Your task to perform on an android device: Clear the cart on walmart. Search for "energizer triple a" on walmart, select the first entry, add it to the cart, then select checkout. Image 0: 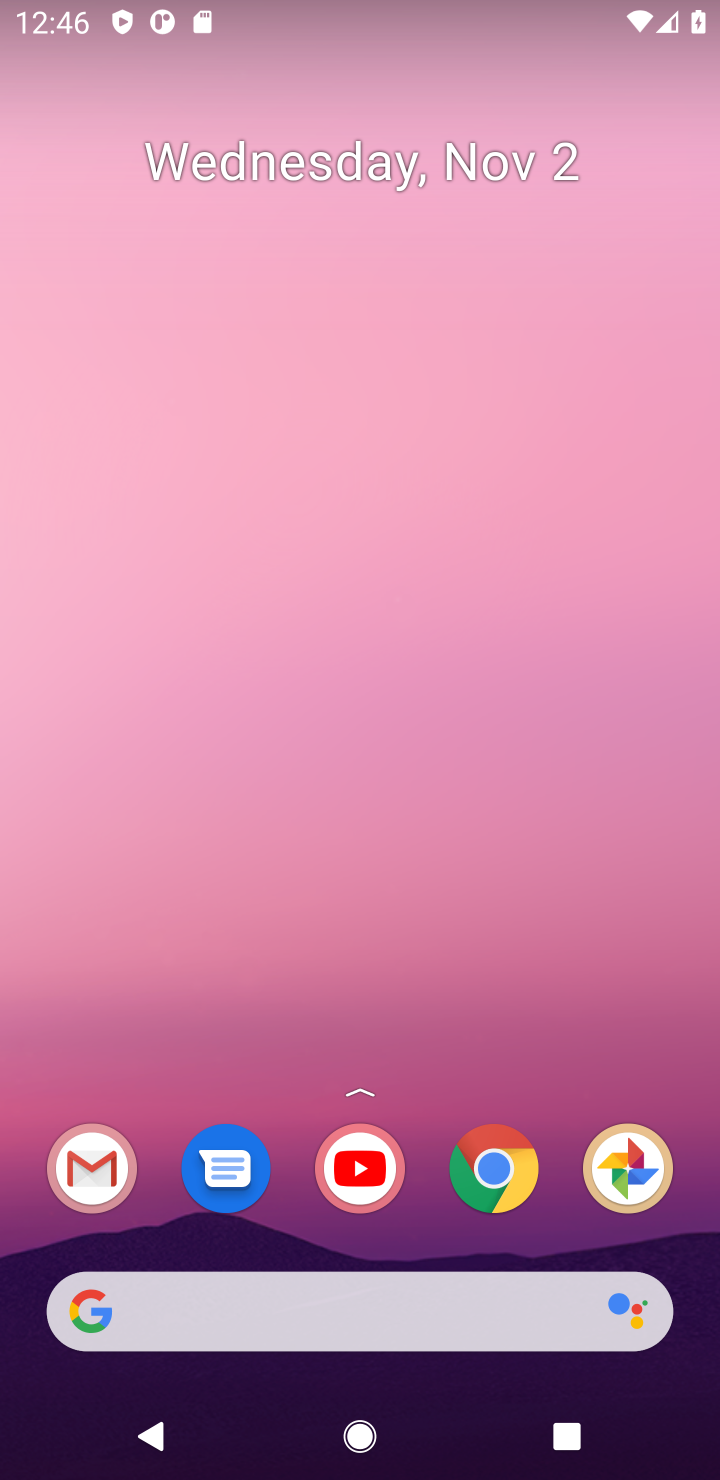
Step 0: drag from (249, 1117) to (596, 1406)
Your task to perform on an android device: Clear the cart on walmart. Search for "energizer triple a" on walmart, select the first entry, add it to the cart, then select checkout. Image 1: 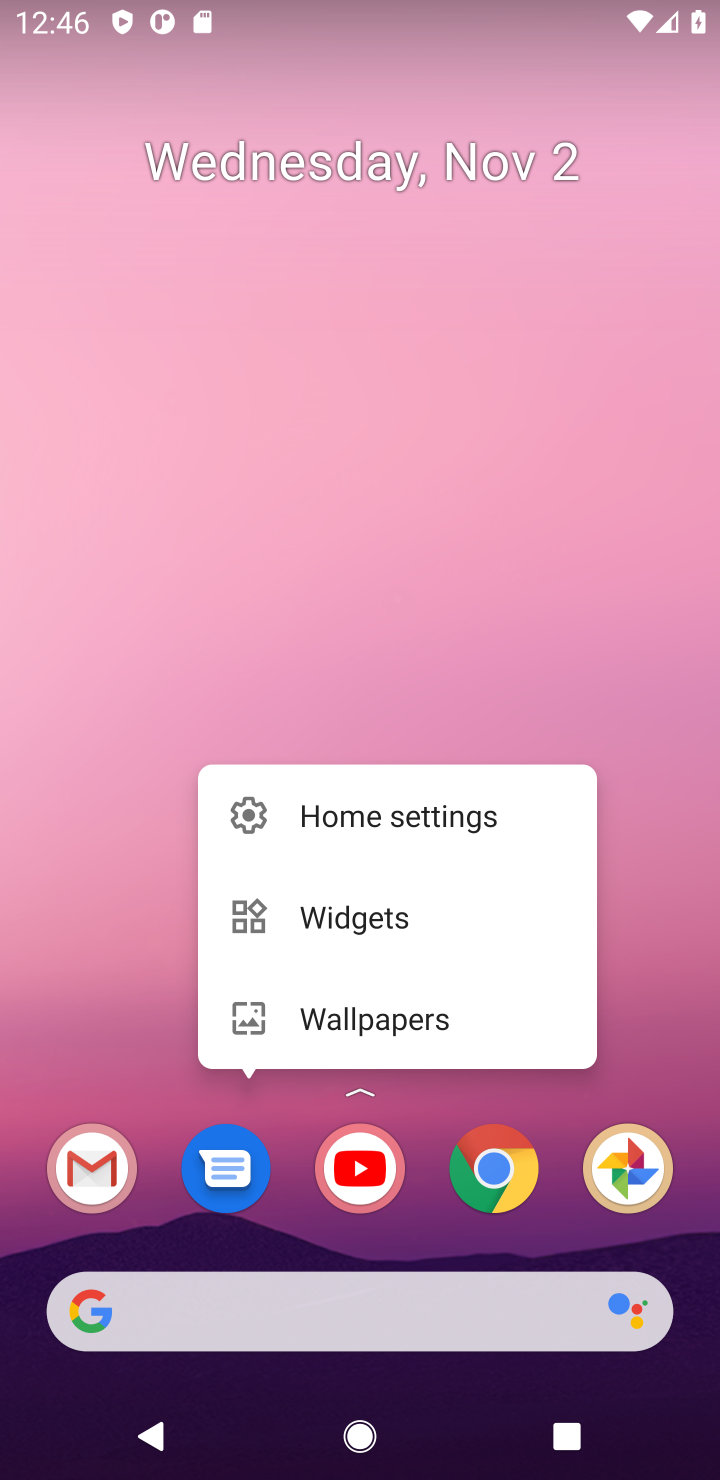
Step 1: click (291, 1309)
Your task to perform on an android device: Clear the cart on walmart. Search for "energizer triple a" on walmart, select the first entry, add it to the cart, then select checkout. Image 2: 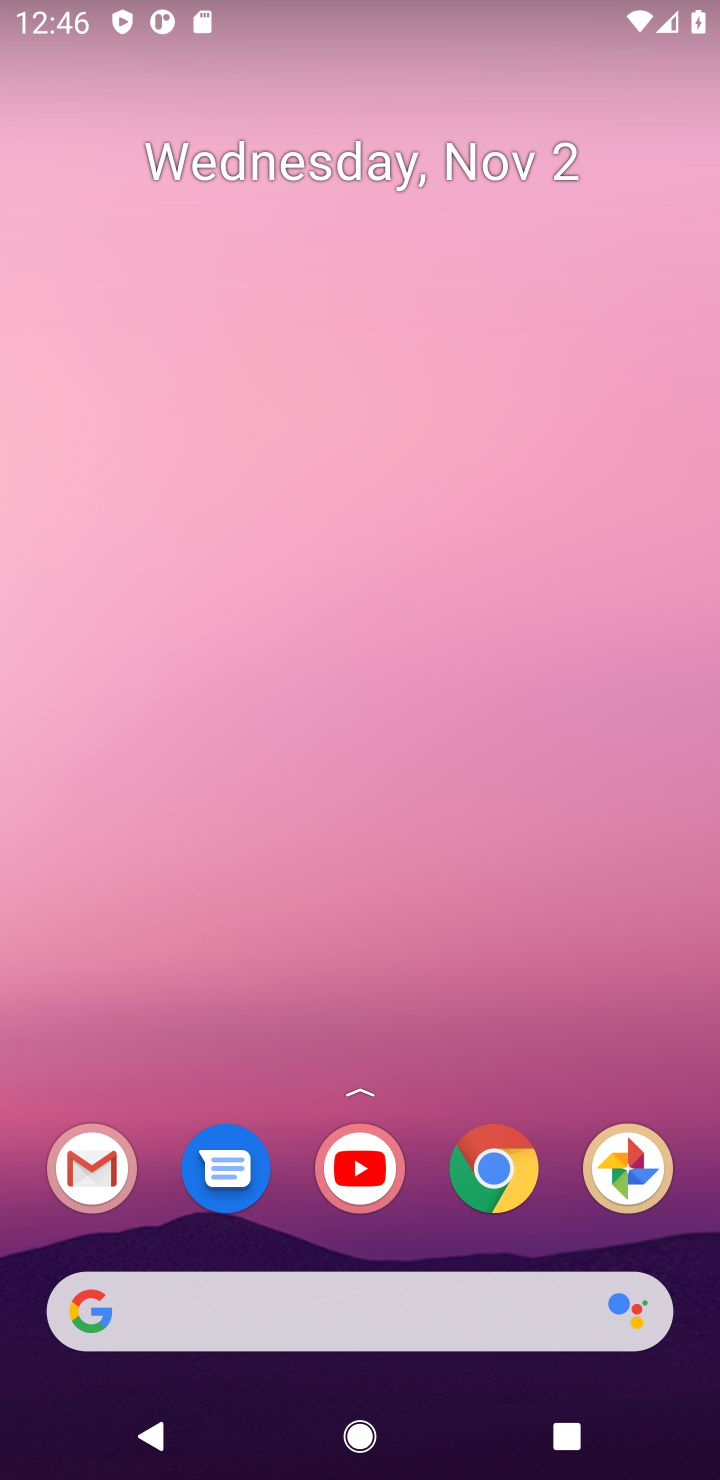
Step 2: click (291, 1309)
Your task to perform on an android device: Clear the cart on walmart. Search for "energizer triple a" on walmart, select the first entry, add it to the cart, then select checkout. Image 3: 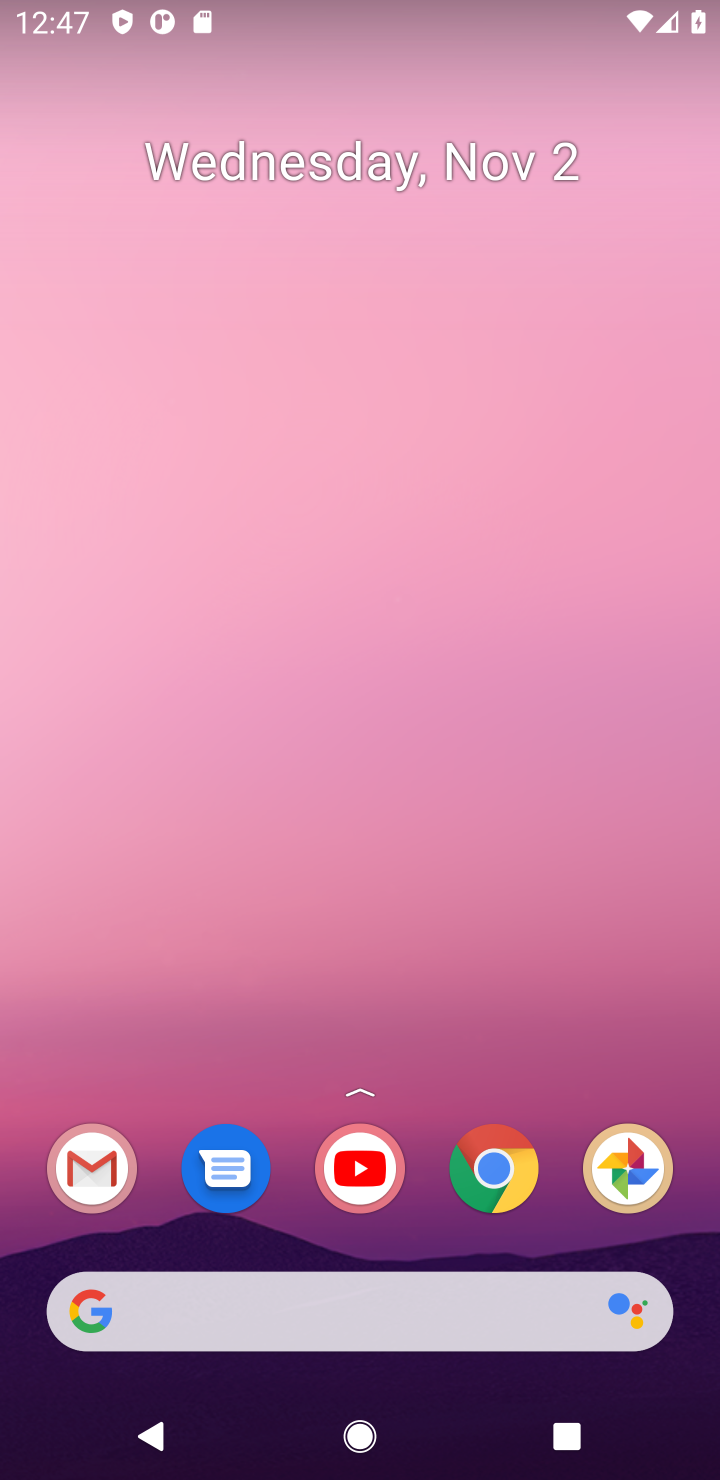
Step 3: click (291, 1309)
Your task to perform on an android device: Clear the cart on walmart. Search for "energizer triple a" on walmart, select the first entry, add it to the cart, then select checkout. Image 4: 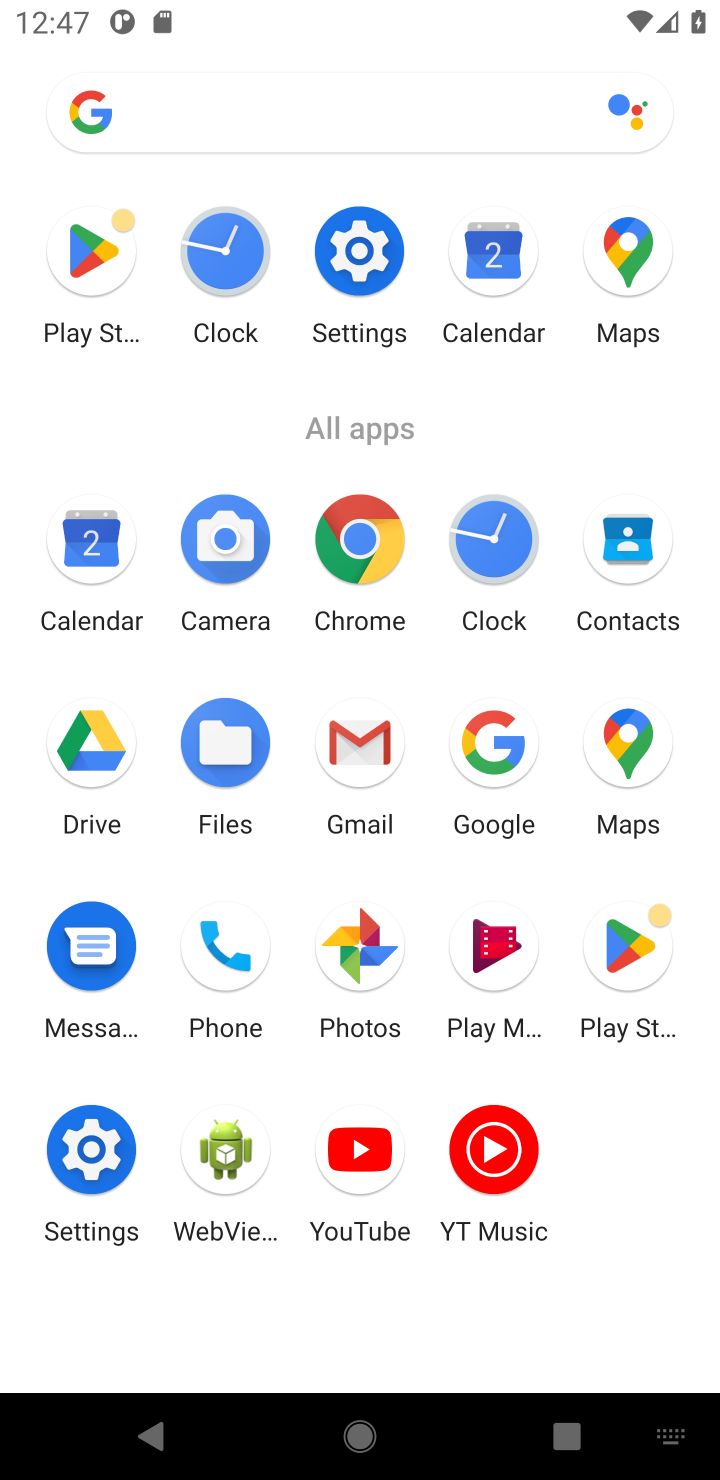
Step 4: click (495, 747)
Your task to perform on an android device: Clear the cart on walmart. Search for "energizer triple a" on walmart, select the first entry, add it to the cart, then select checkout. Image 5: 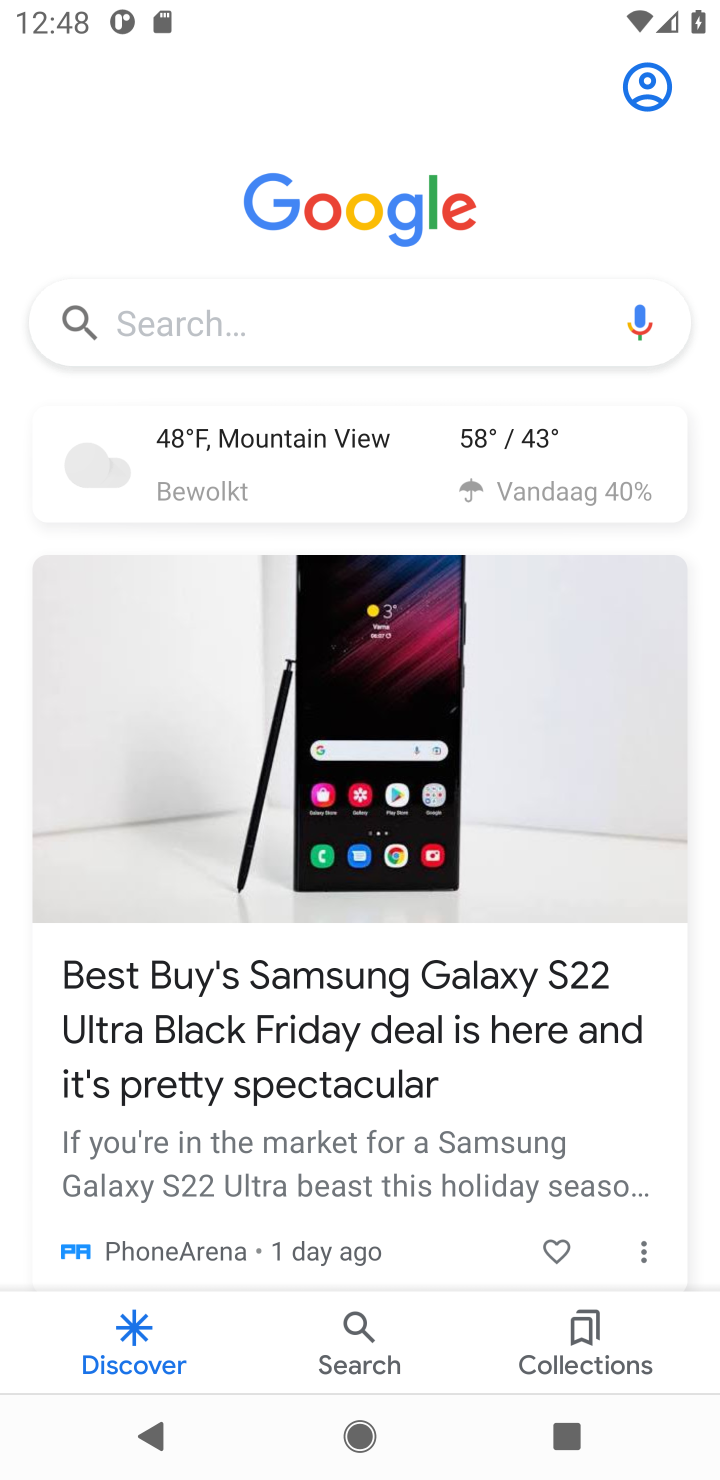
Step 5: click (426, 323)
Your task to perform on an android device: Clear the cart on walmart. Search for "energizer triple a" on walmart, select the first entry, add it to the cart, then select checkout. Image 6: 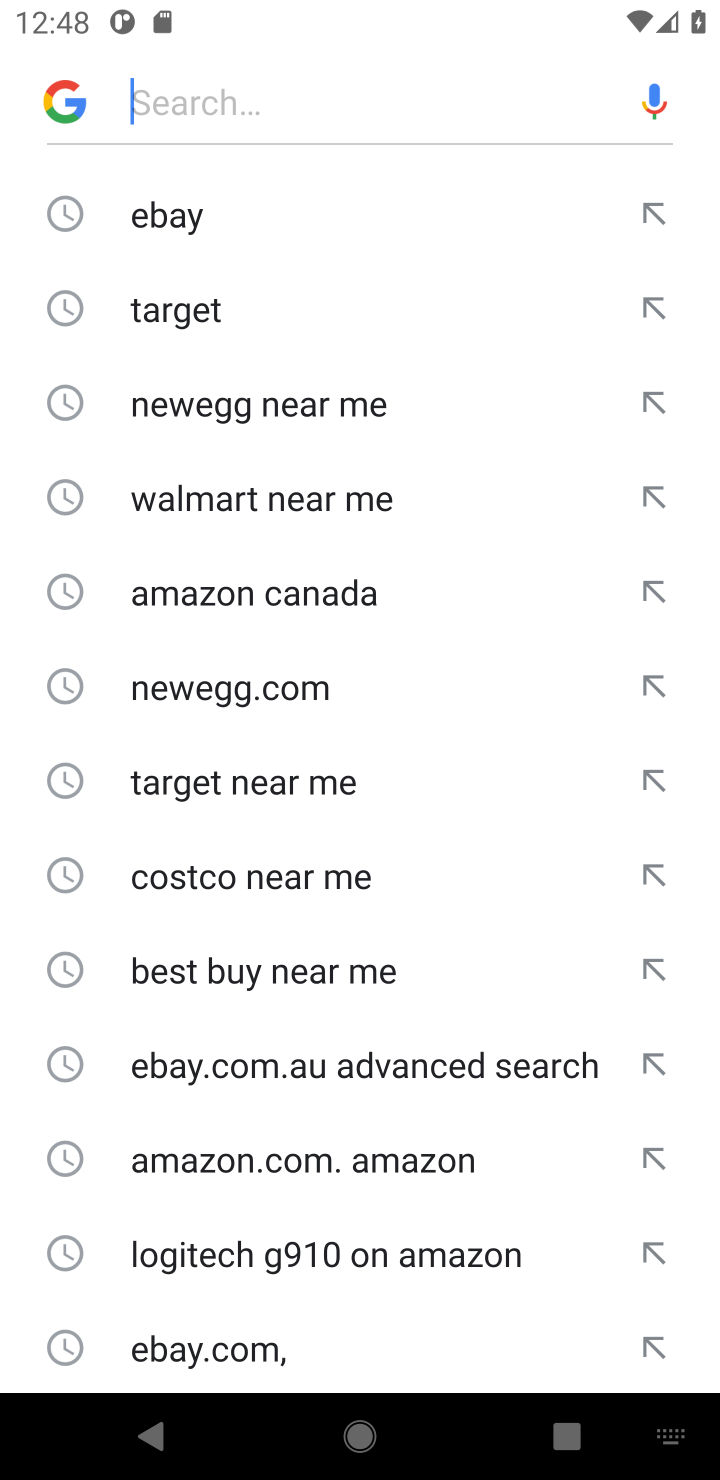
Step 6: type "walmart"
Your task to perform on an android device: Clear the cart on walmart. Search for "energizer triple a" on walmart, select the first entry, add it to the cart, then select checkout. Image 7: 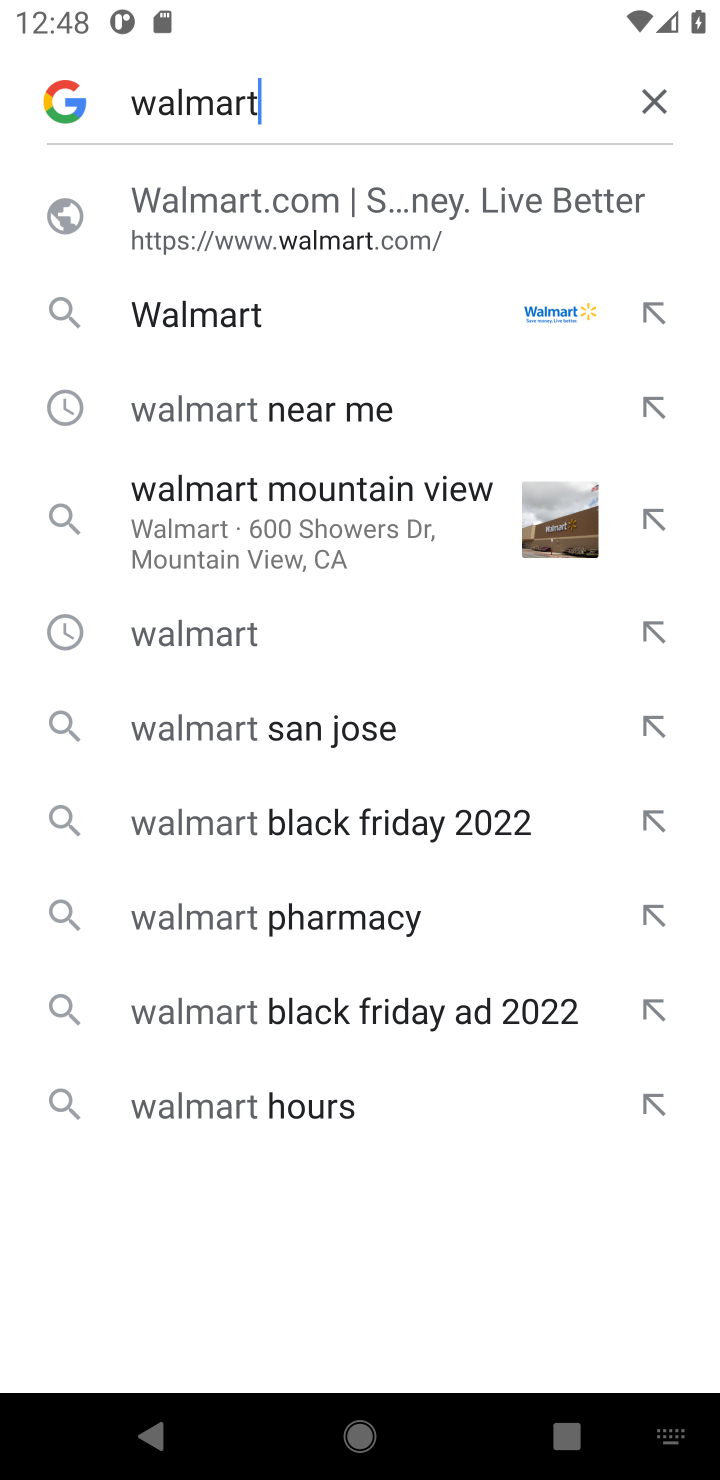
Step 7: click (214, 314)
Your task to perform on an android device: Clear the cart on walmart. Search for "energizer triple a" on walmart, select the first entry, add it to the cart, then select checkout. Image 8: 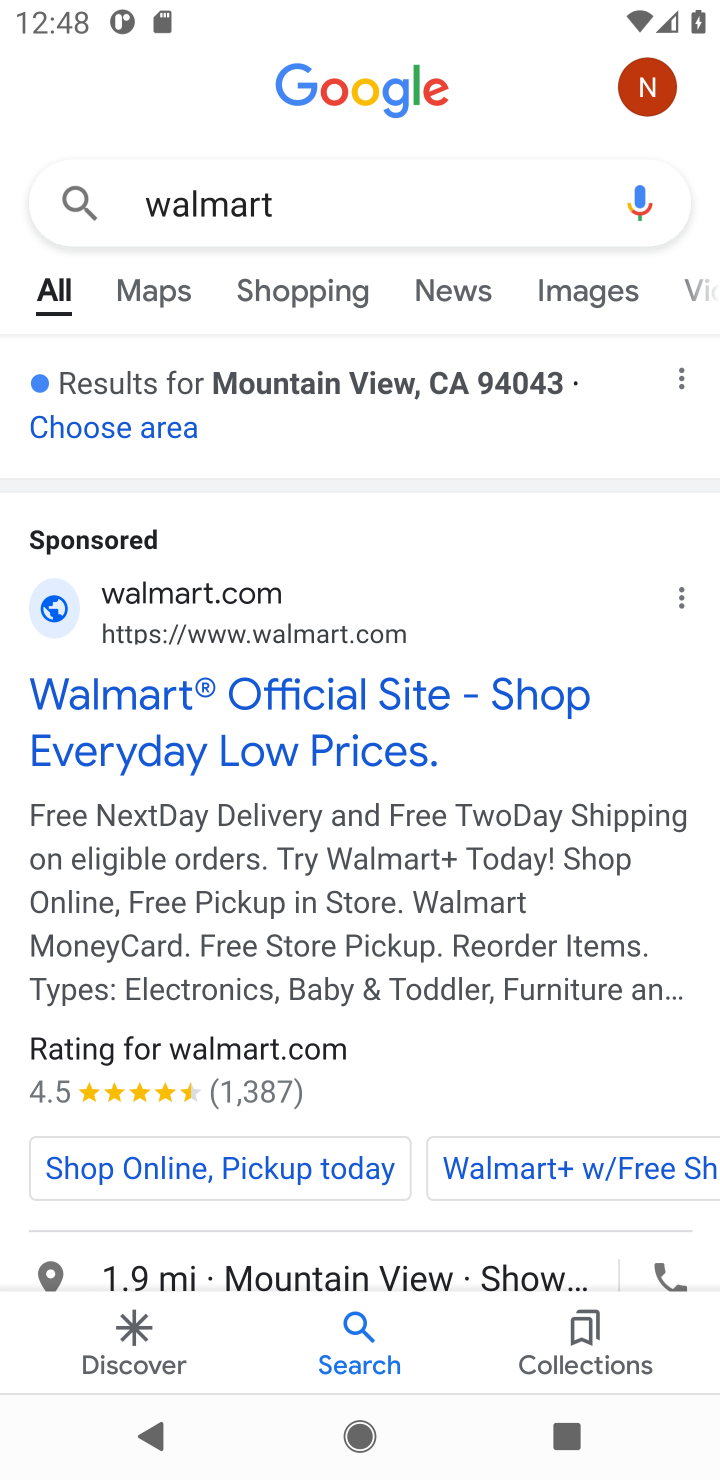
Step 8: click (221, 862)
Your task to perform on an android device: Clear the cart on walmart. Search for "energizer triple a" on walmart, select the first entry, add it to the cart, then select checkout. Image 9: 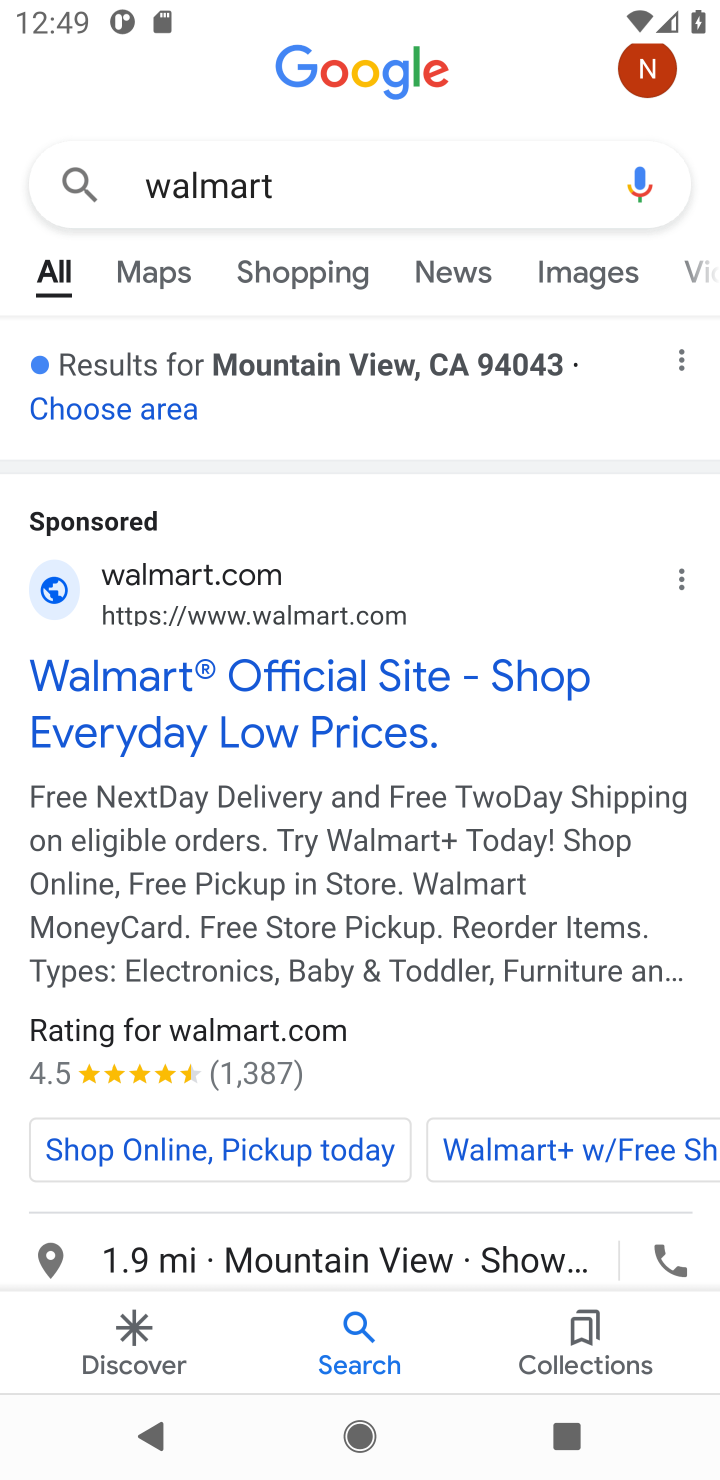
Step 9: drag from (325, 969) to (361, 724)
Your task to perform on an android device: Clear the cart on walmart. Search for "energizer triple a" on walmart, select the first entry, add it to the cart, then select checkout. Image 10: 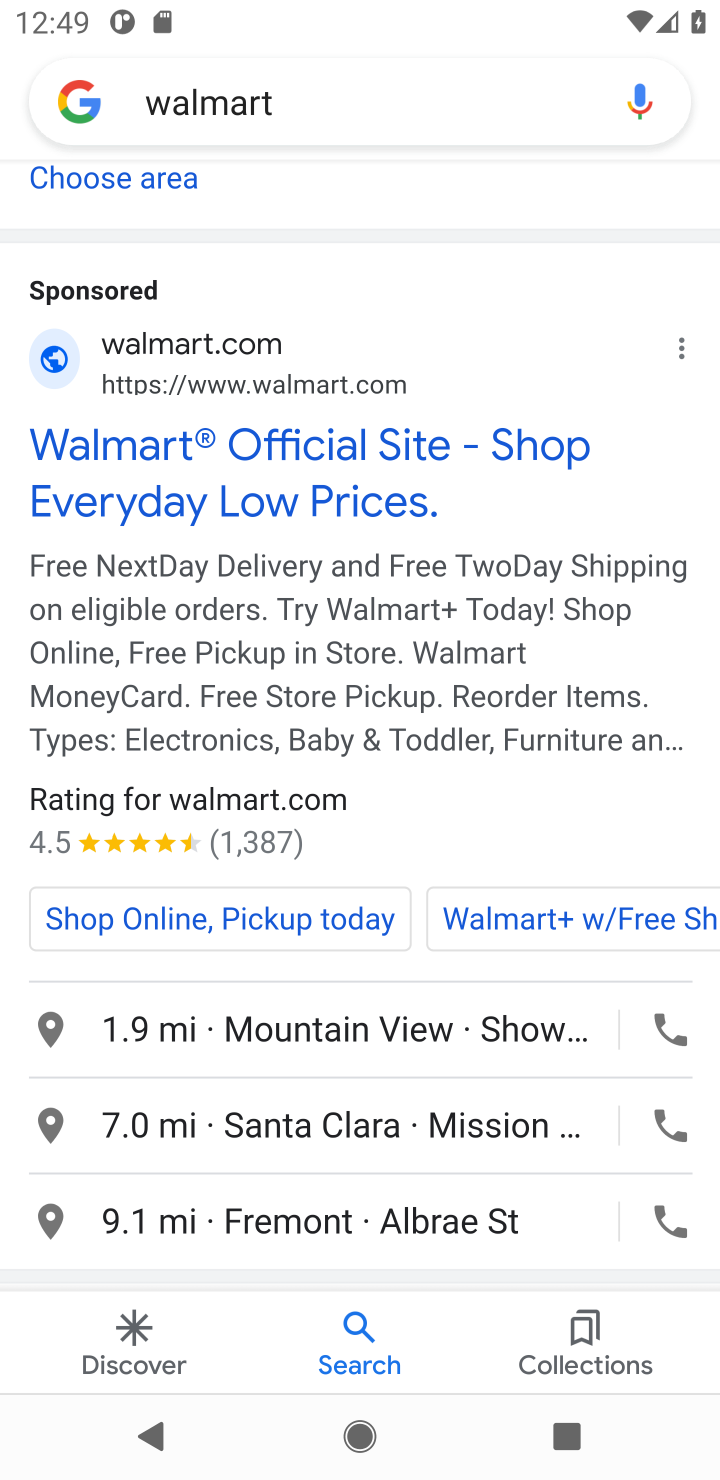
Step 10: drag from (344, 1116) to (378, 825)
Your task to perform on an android device: Clear the cart on walmart. Search for "energizer triple a" on walmart, select the first entry, add it to the cart, then select checkout. Image 11: 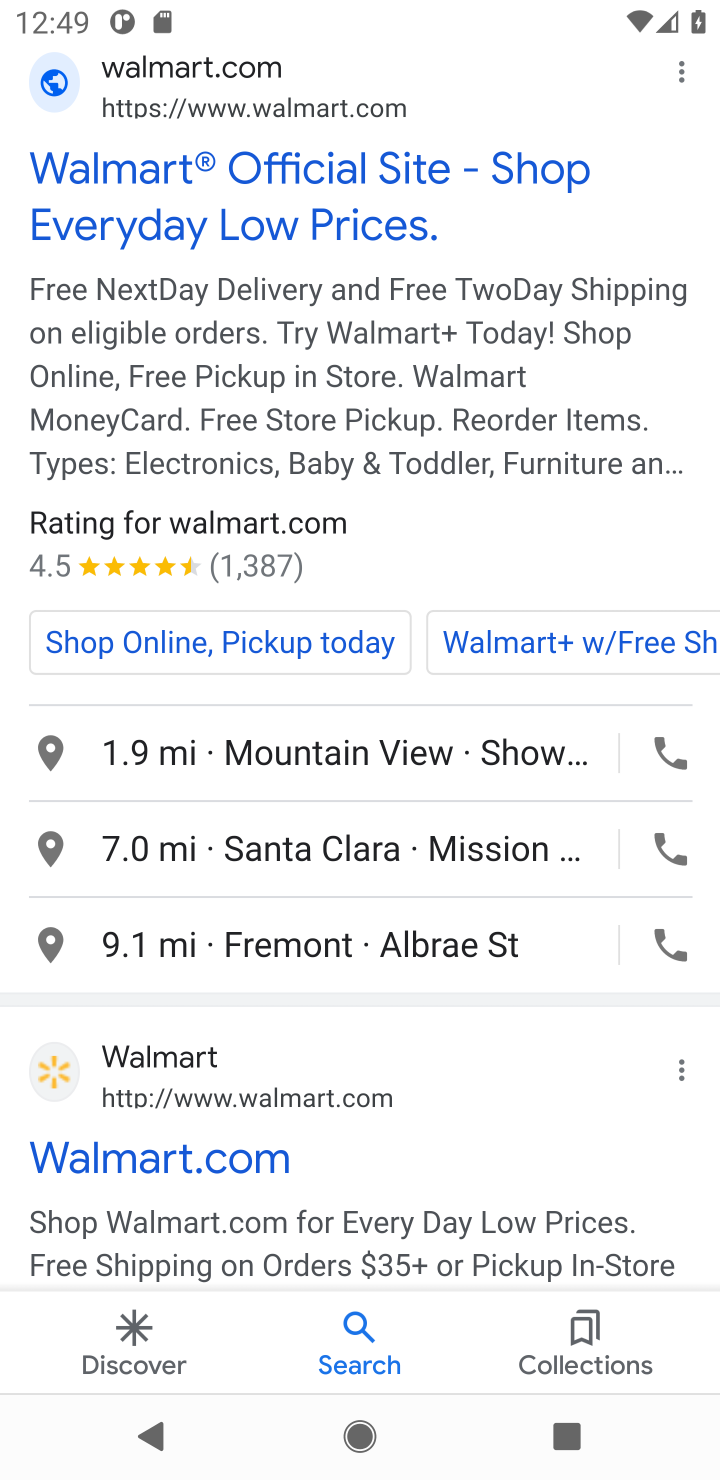
Step 11: click (146, 1149)
Your task to perform on an android device: Clear the cart on walmart. Search for "energizer triple a" on walmart, select the first entry, add it to the cart, then select checkout. Image 12: 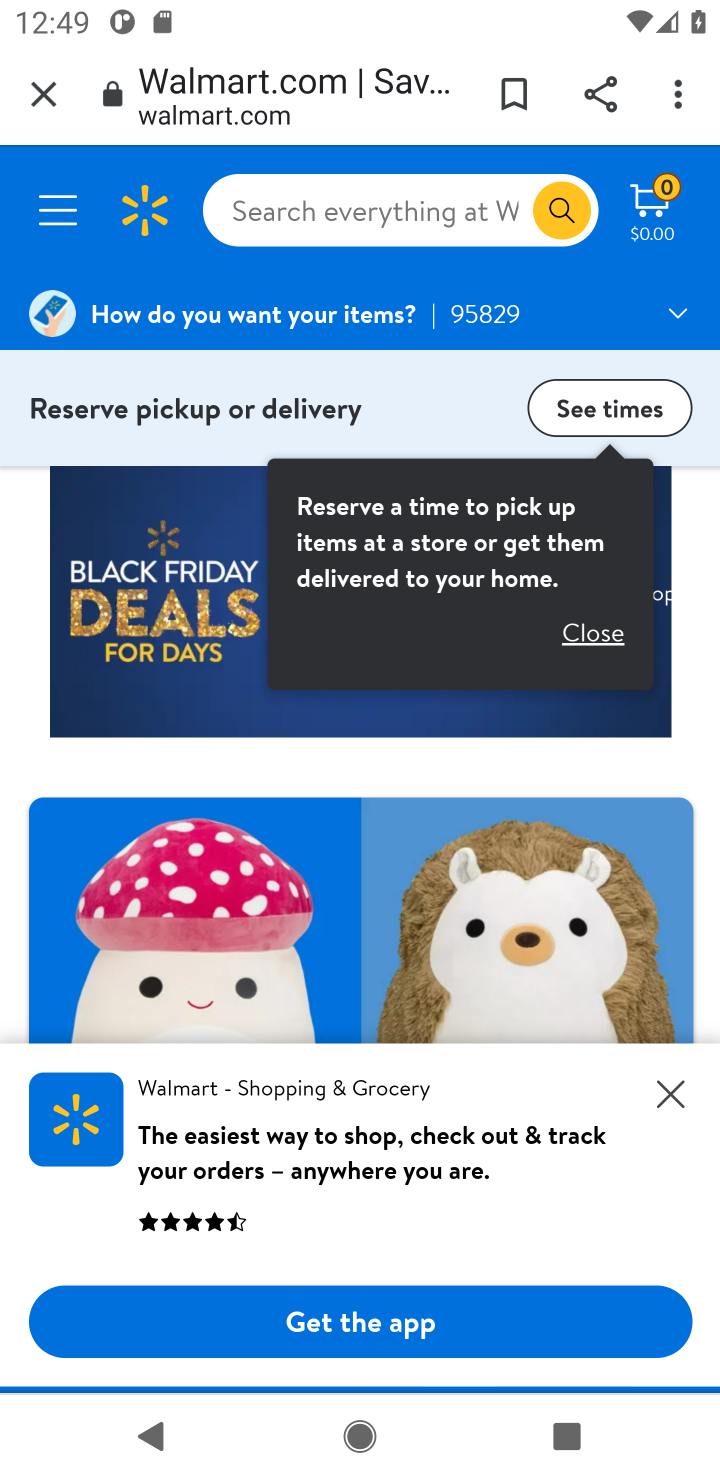
Step 12: click (390, 180)
Your task to perform on an android device: Clear the cart on walmart. Search for "energizer triple a" on walmart, select the first entry, add it to the cart, then select checkout. Image 13: 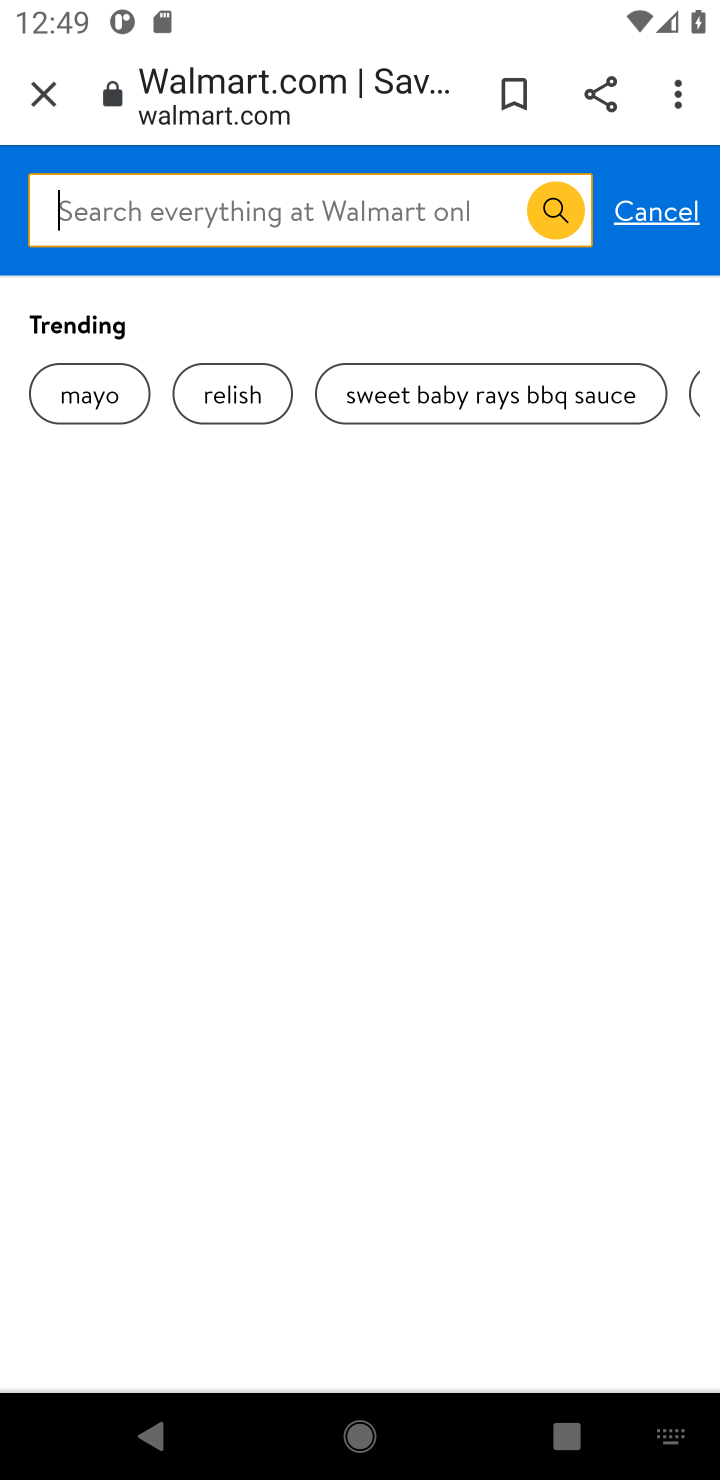
Step 13: click (200, 216)
Your task to perform on an android device: Clear the cart on walmart. Search for "energizer triple a" on walmart, select the first entry, add it to the cart, then select checkout. Image 14: 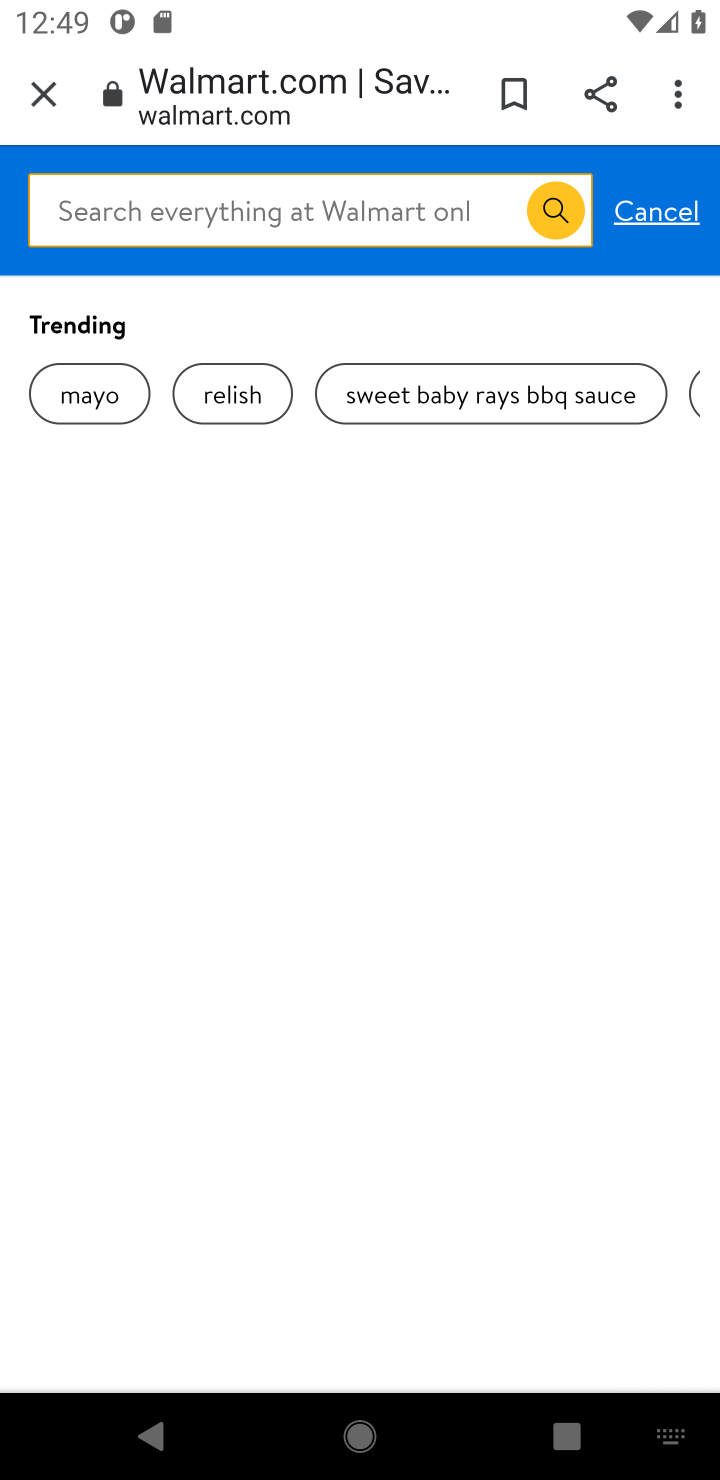
Step 14: type "energizer triple a"
Your task to perform on an android device: Clear the cart on walmart. Search for "energizer triple a" on walmart, select the first entry, add it to the cart, then select checkout. Image 15: 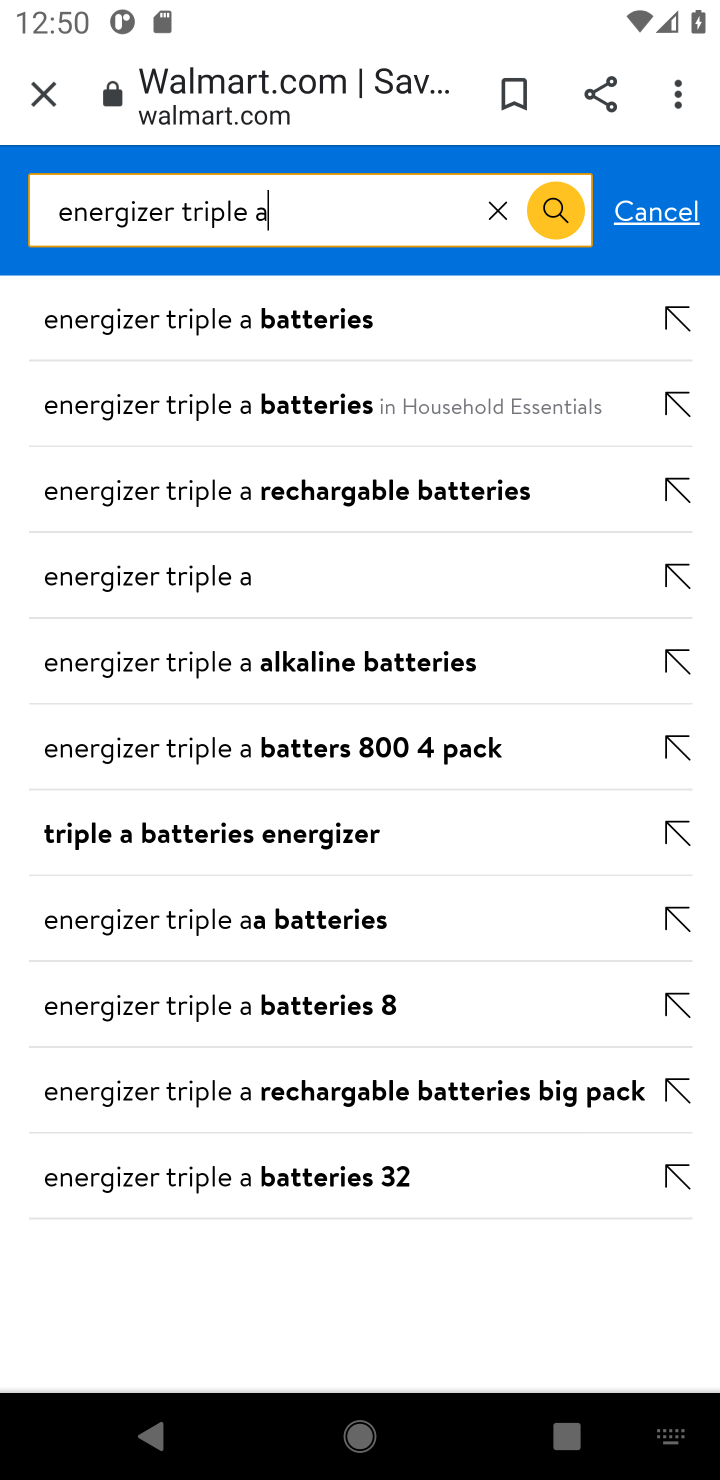
Step 15: click (292, 329)
Your task to perform on an android device: Clear the cart on walmart. Search for "energizer triple a" on walmart, select the first entry, add it to the cart, then select checkout. Image 16: 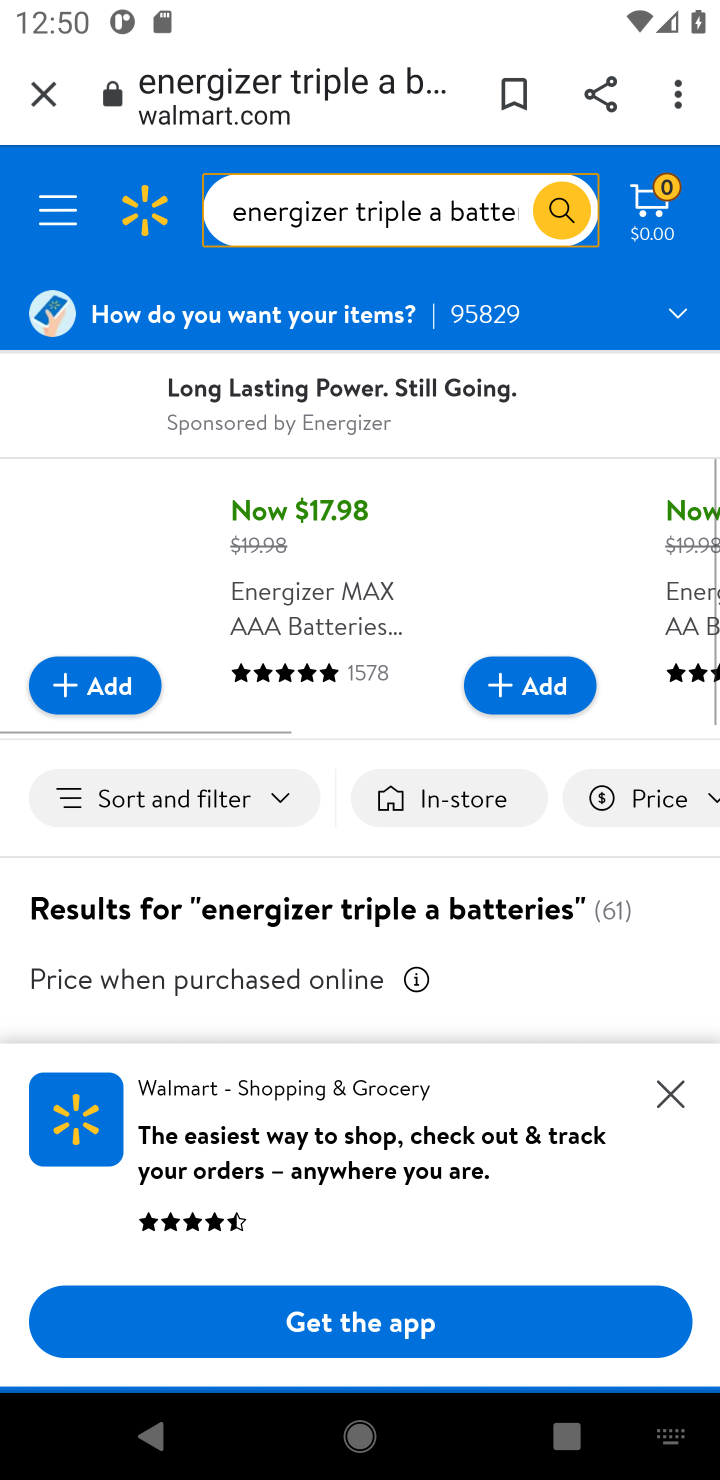
Step 16: click (689, 1089)
Your task to perform on an android device: Clear the cart on walmart. Search for "energizer triple a" on walmart, select the first entry, add it to the cart, then select checkout. Image 17: 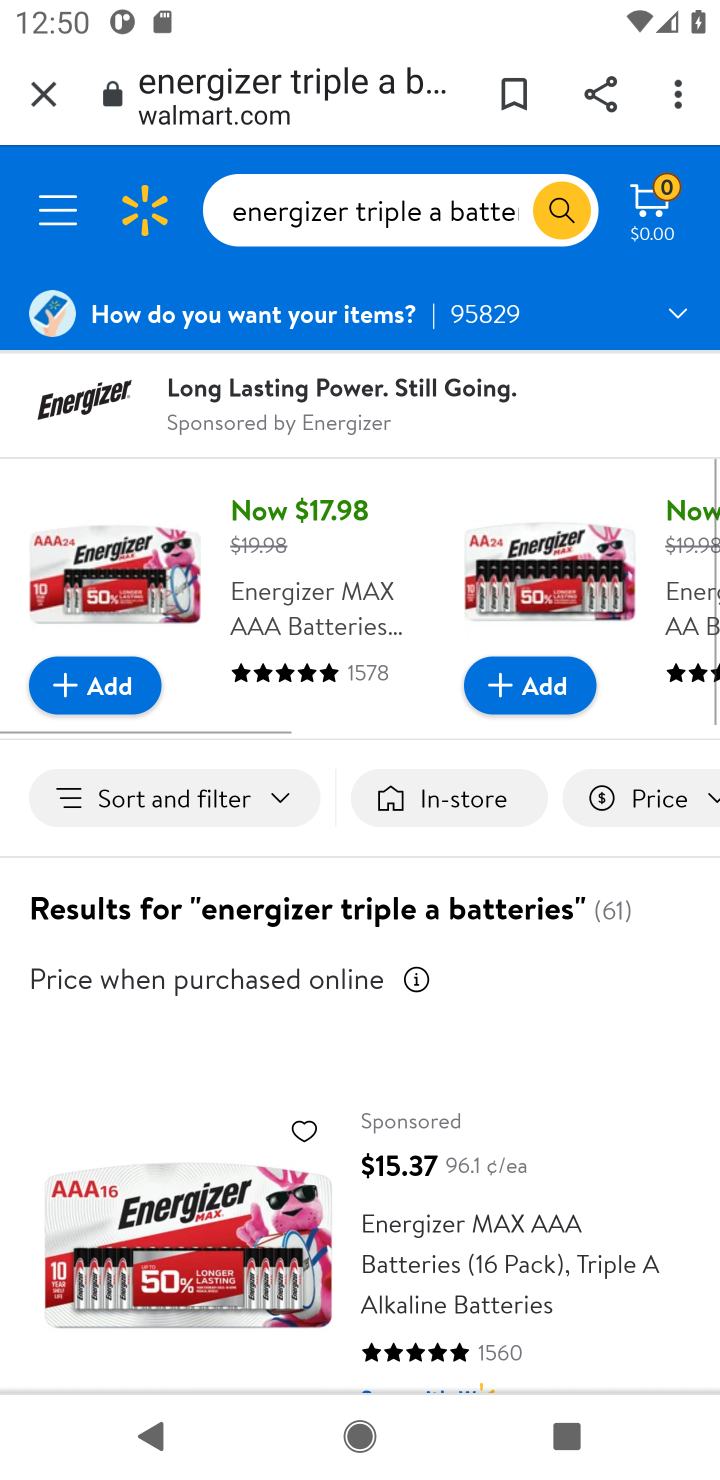
Step 17: click (93, 664)
Your task to perform on an android device: Clear the cart on walmart. Search for "energizer triple a" on walmart, select the first entry, add it to the cart, then select checkout. Image 18: 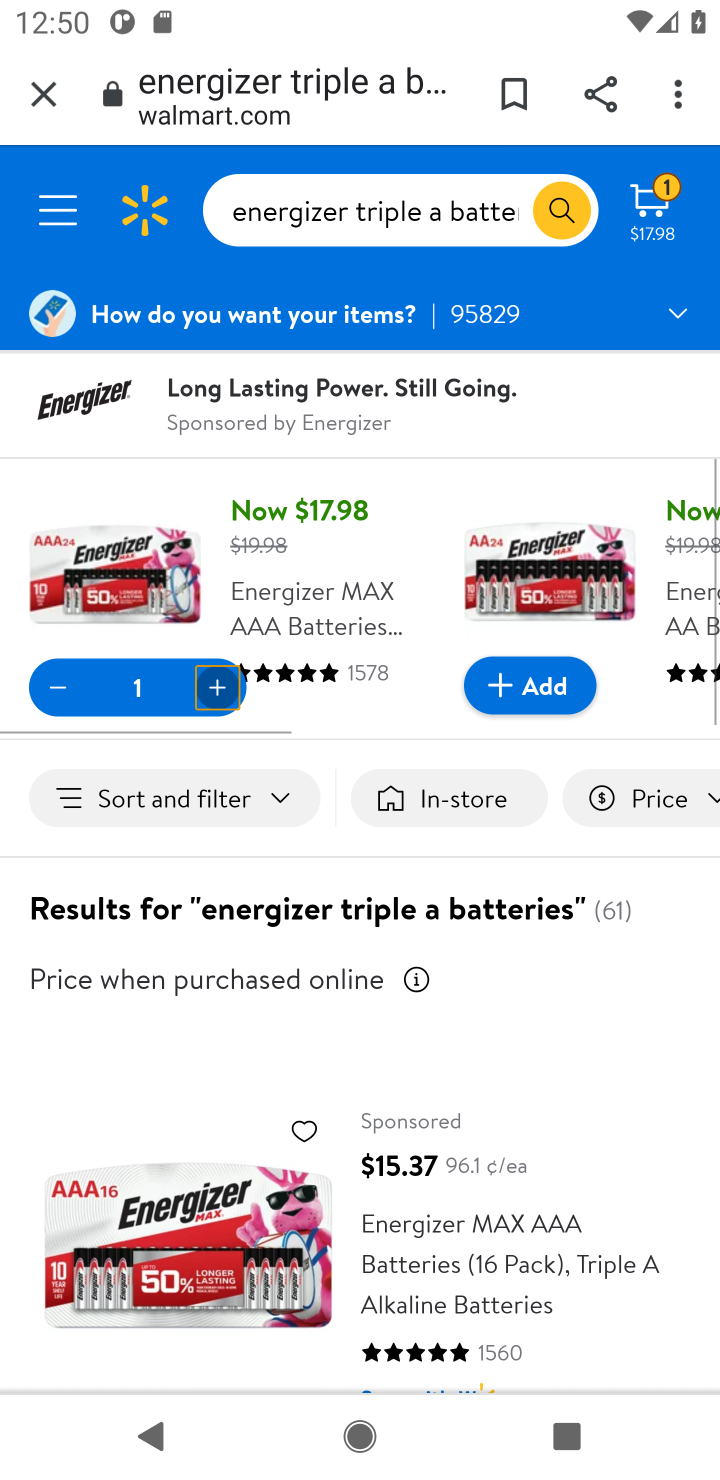
Step 18: click (661, 210)
Your task to perform on an android device: Clear the cart on walmart. Search for "energizer triple a" on walmart, select the first entry, add it to the cart, then select checkout. Image 19: 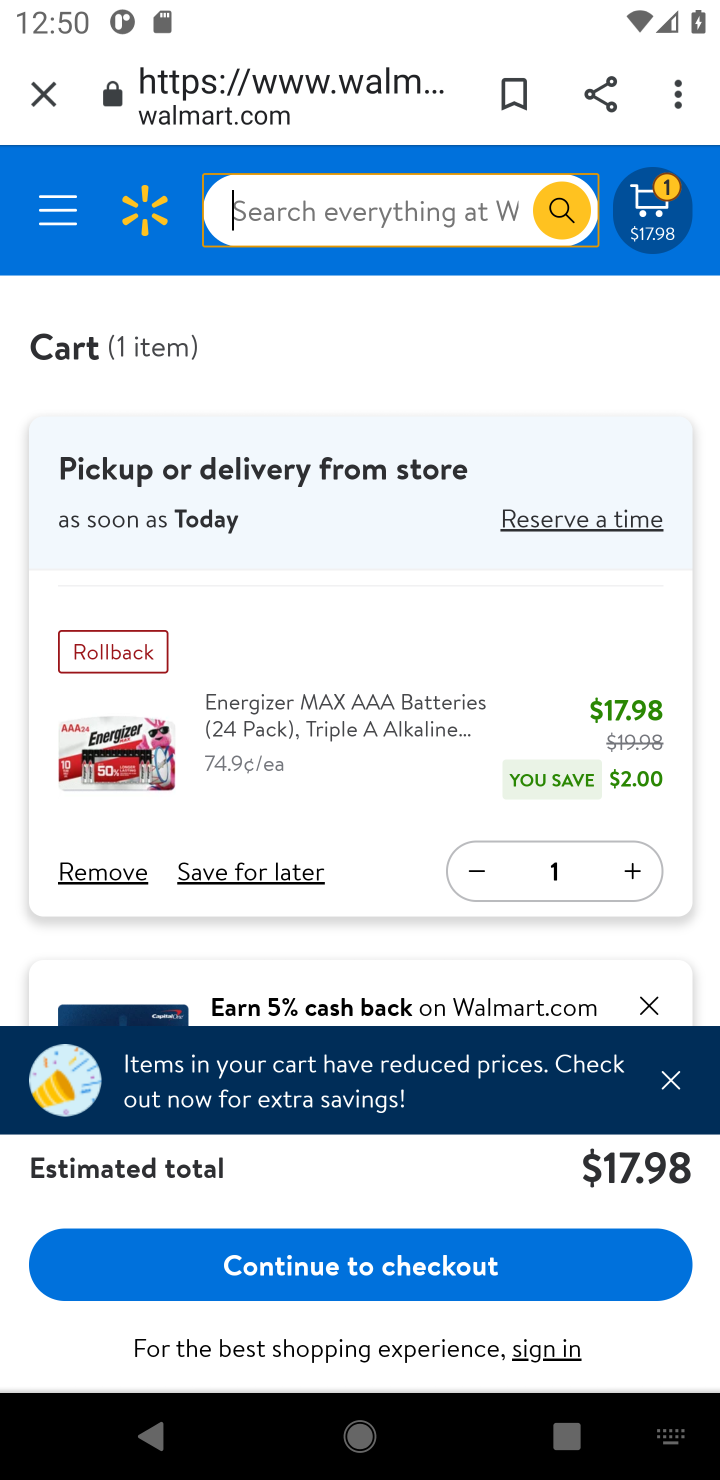
Step 19: click (310, 1262)
Your task to perform on an android device: Clear the cart on walmart. Search for "energizer triple a" on walmart, select the first entry, add it to the cart, then select checkout. Image 20: 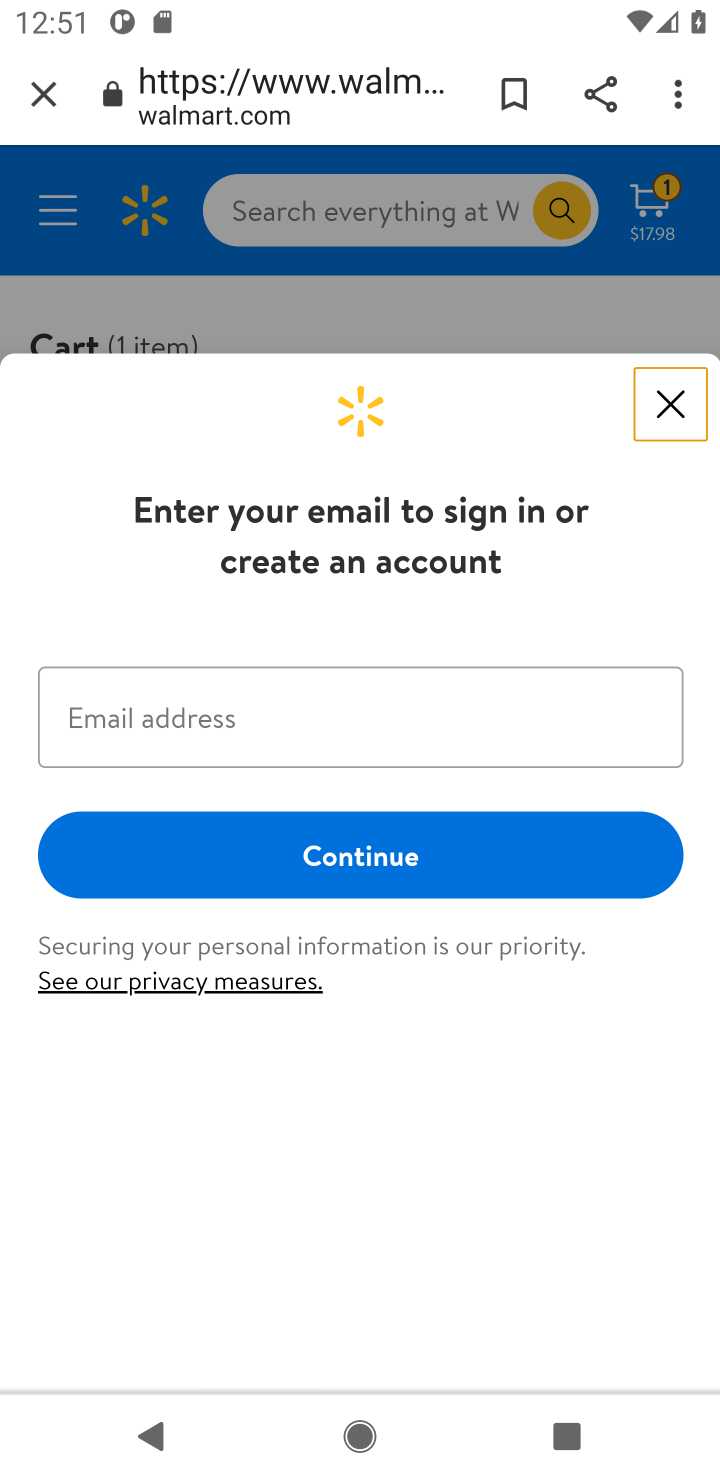
Step 20: press home button
Your task to perform on an android device: Clear the cart on walmart. Search for "energizer triple a" on walmart, select the first entry, add it to the cart, then select checkout. Image 21: 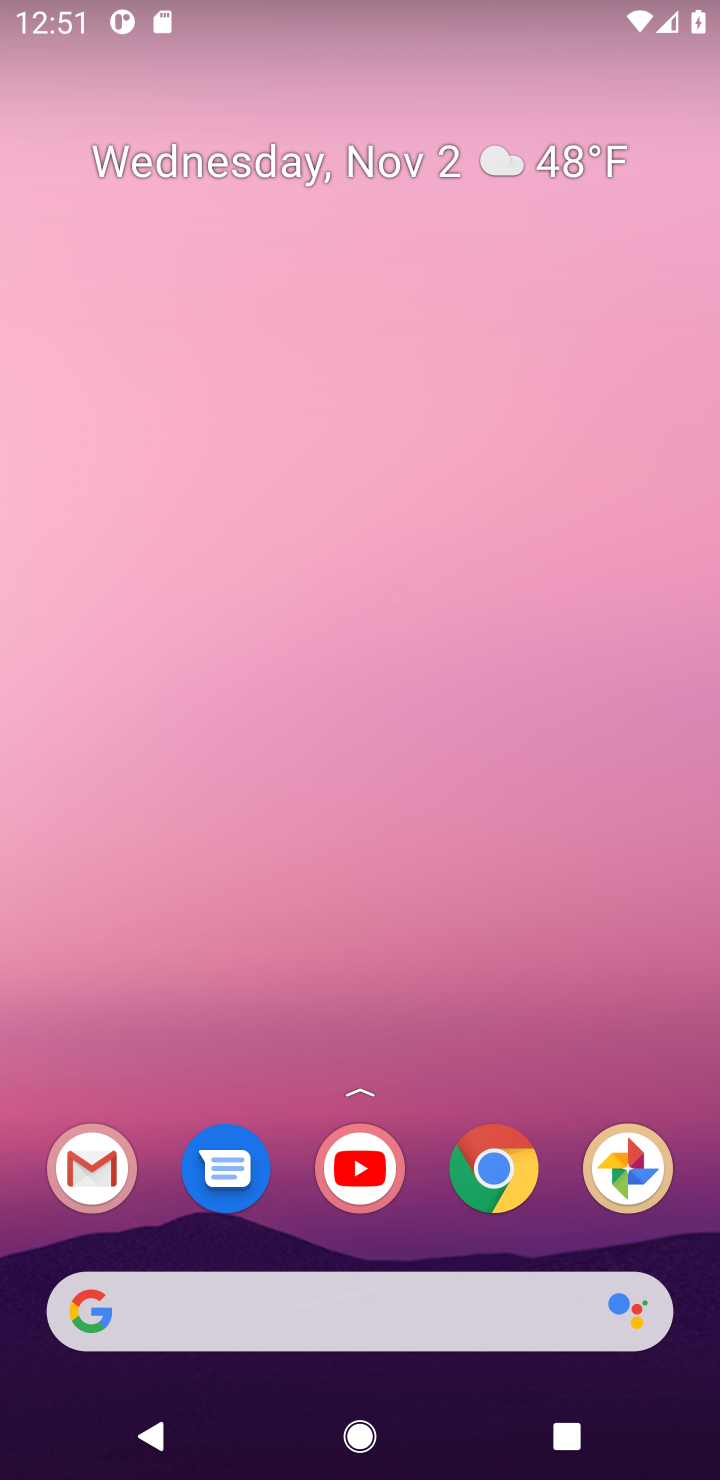
Step 21: drag from (382, 1173) to (410, 268)
Your task to perform on an android device: Clear the cart on walmart. Search for "energizer triple a" on walmart, select the first entry, add it to the cart, then select checkout. Image 22: 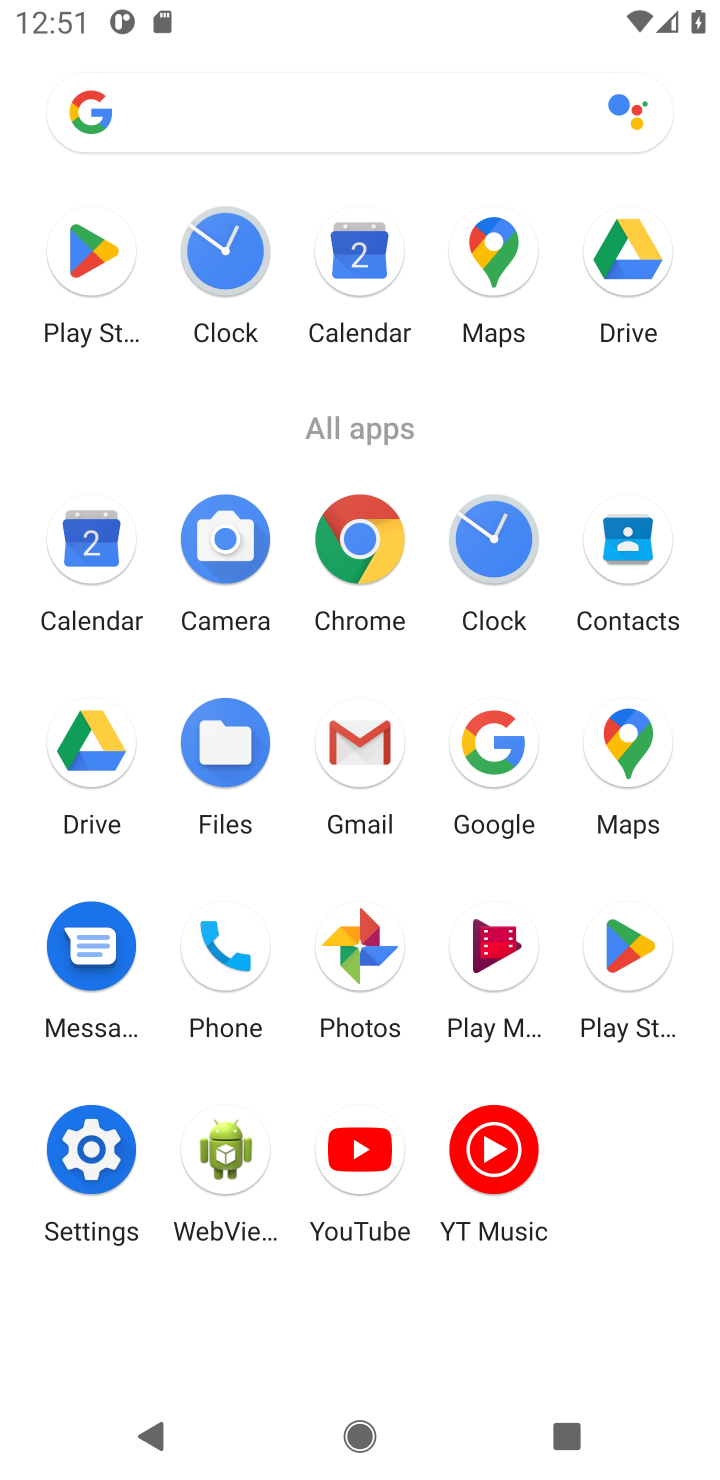
Step 22: click (501, 755)
Your task to perform on an android device: Clear the cart on walmart. Search for "energizer triple a" on walmart, select the first entry, add it to the cart, then select checkout. Image 23: 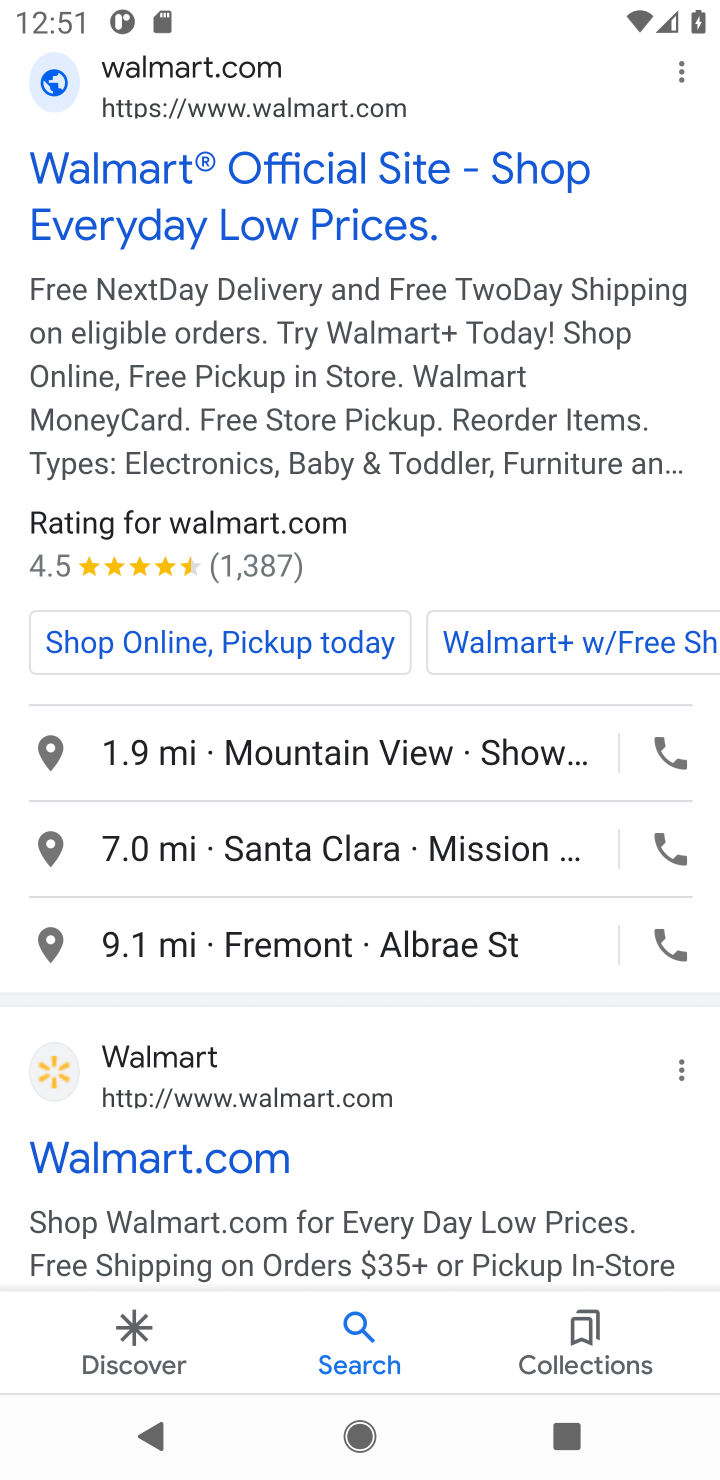
Step 23: click (383, 1014)
Your task to perform on an android device: Clear the cart on walmart. Search for "energizer triple a" on walmart, select the first entry, add it to the cart, then select checkout. Image 24: 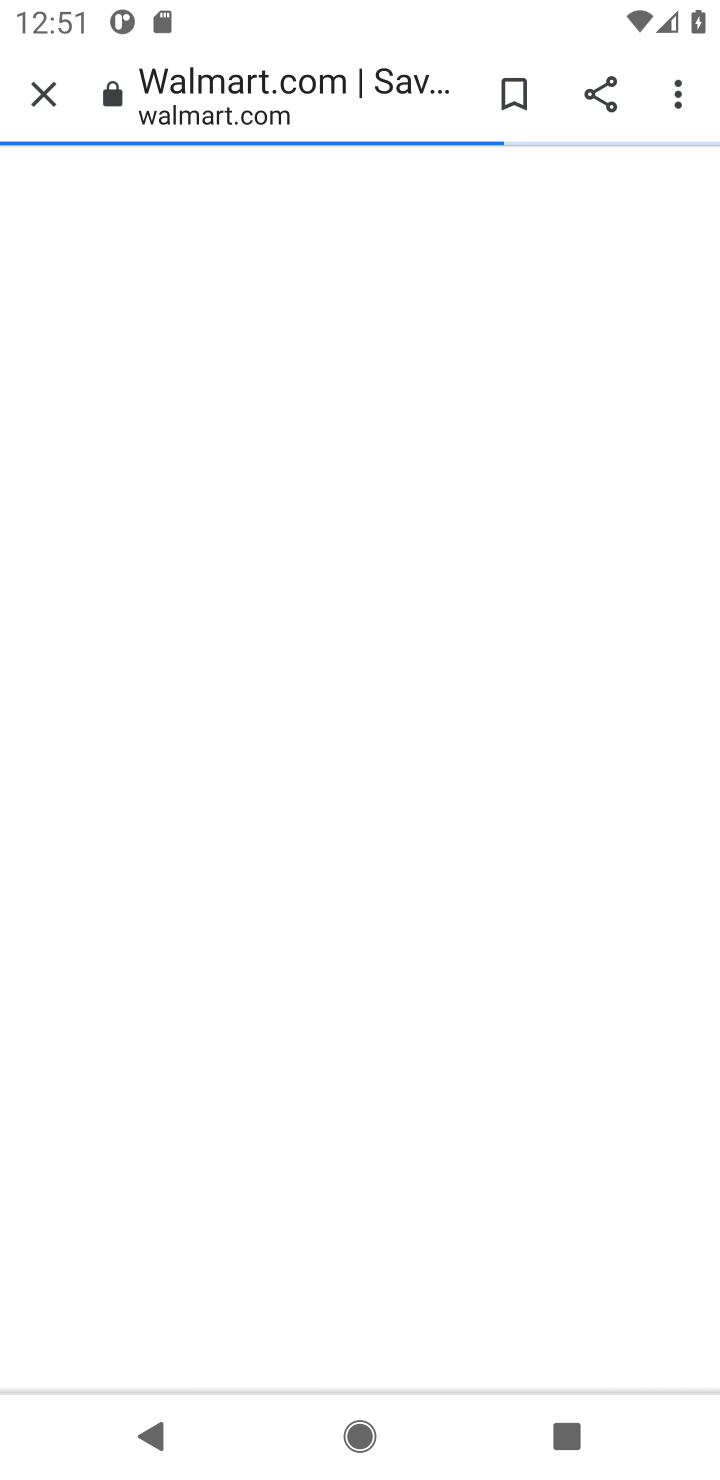
Step 24: click (372, 1345)
Your task to perform on an android device: Clear the cart on walmart. Search for "energizer triple a" on walmart, select the first entry, add it to the cart, then select checkout. Image 25: 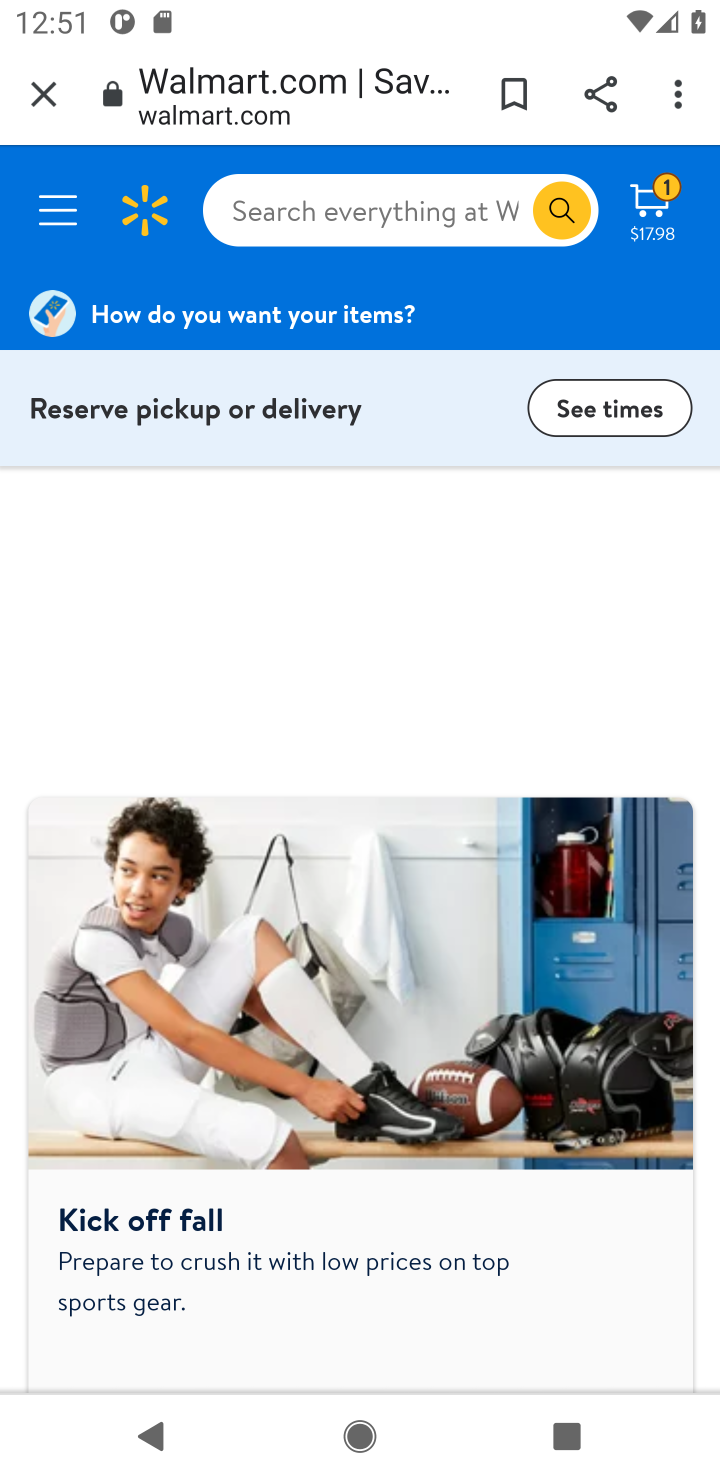
Step 25: click (400, 208)
Your task to perform on an android device: Clear the cart on walmart. Search for "energizer triple a" on walmart, select the first entry, add it to the cart, then select checkout. Image 26: 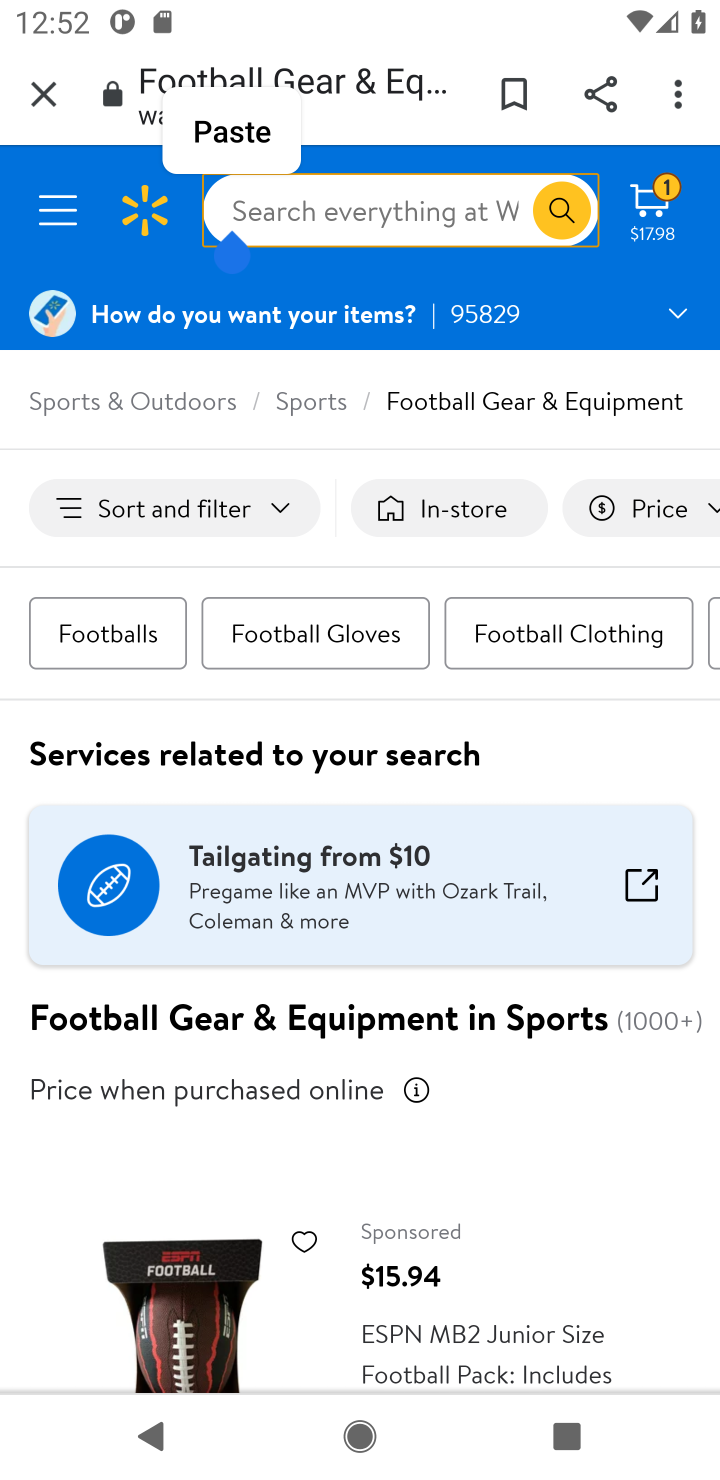
Step 26: click (400, 208)
Your task to perform on an android device: Clear the cart on walmart. Search for "energizer triple a" on walmart, select the first entry, add it to the cart, then select checkout. Image 27: 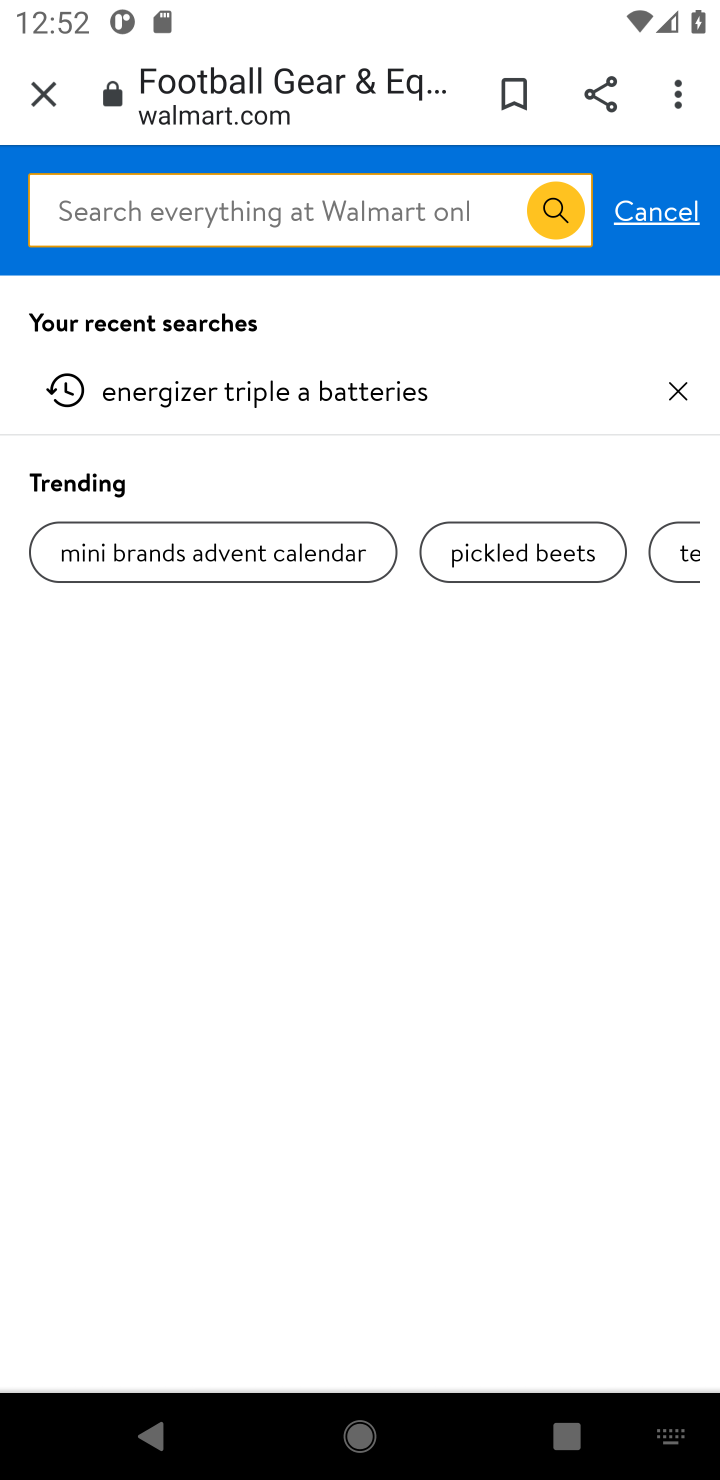
Step 27: type "energizer triple a"
Your task to perform on an android device: Clear the cart on walmart. Search for "energizer triple a" on walmart, select the first entry, add it to the cart, then select checkout. Image 28: 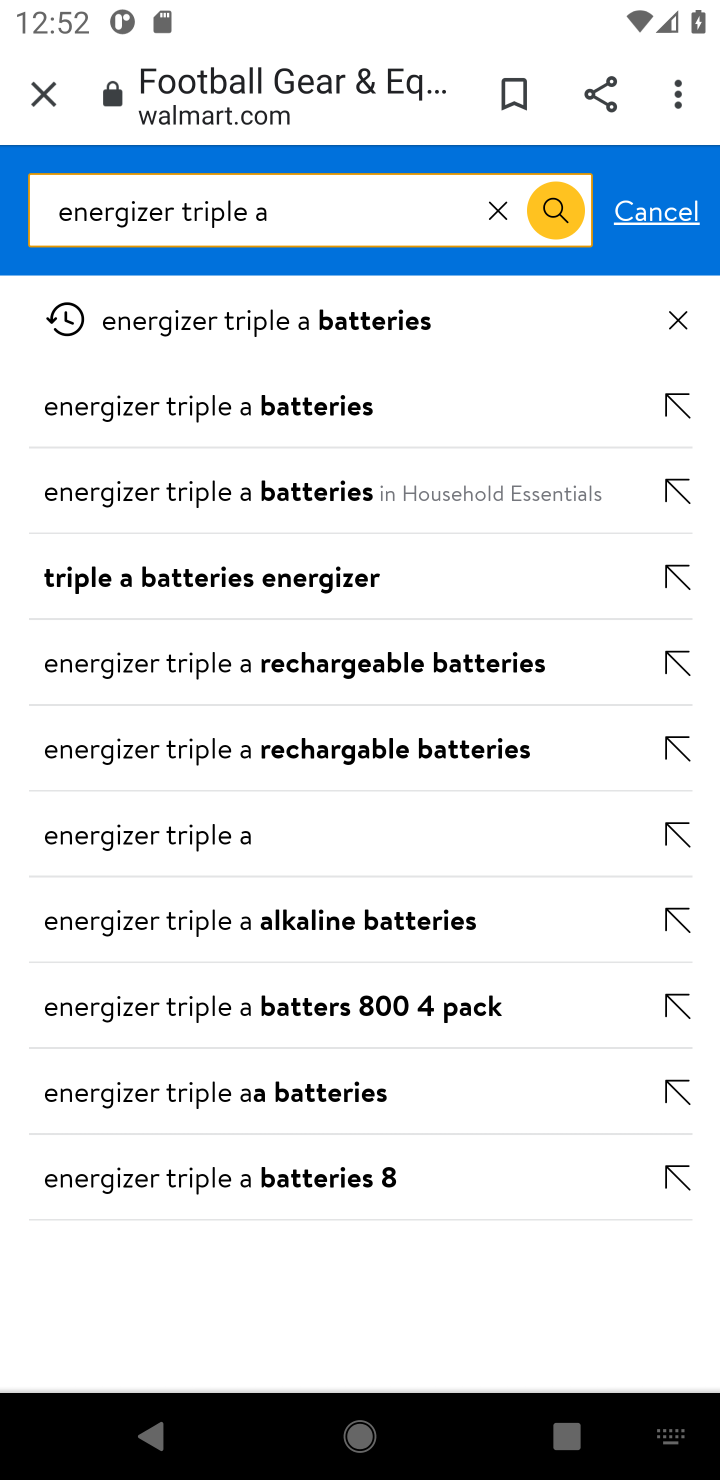
Step 28: click (341, 336)
Your task to perform on an android device: Clear the cart on walmart. Search for "energizer triple a" on walmart, select the first entry, add it to the cart, then select checkout. Image 29: 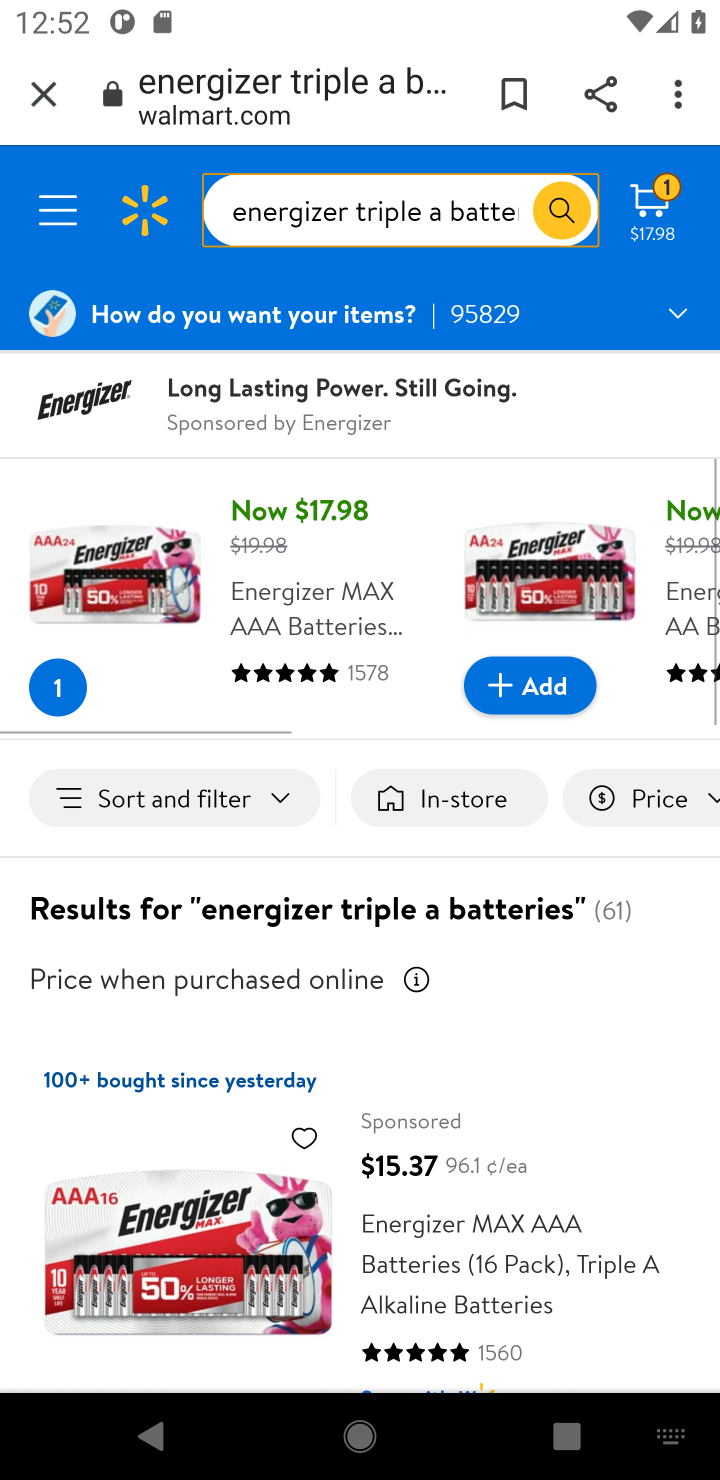
Step 29: click (514, 692)
Your task to perform on an android device: Clear the cart on walmart. Search for "energizer triple a" on walmart, select the first entry, add it to the cart, then select checkout. Image 30: 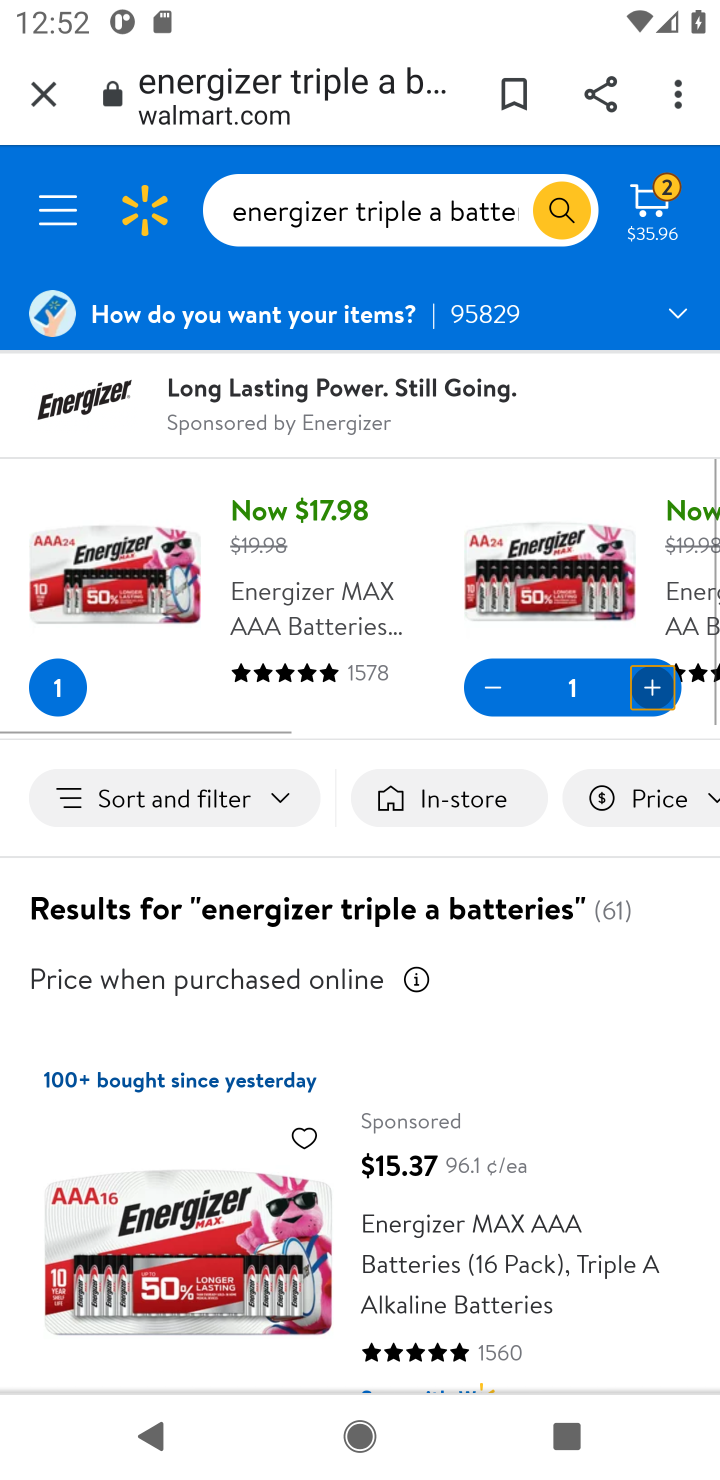
Step 30: click (650, 212)
Your task to perform on an android device: Clear the cart on walmart. Search for "energizer triple a" on walmart, select the first entry, add it to the cart, then select checkout. Image 31: 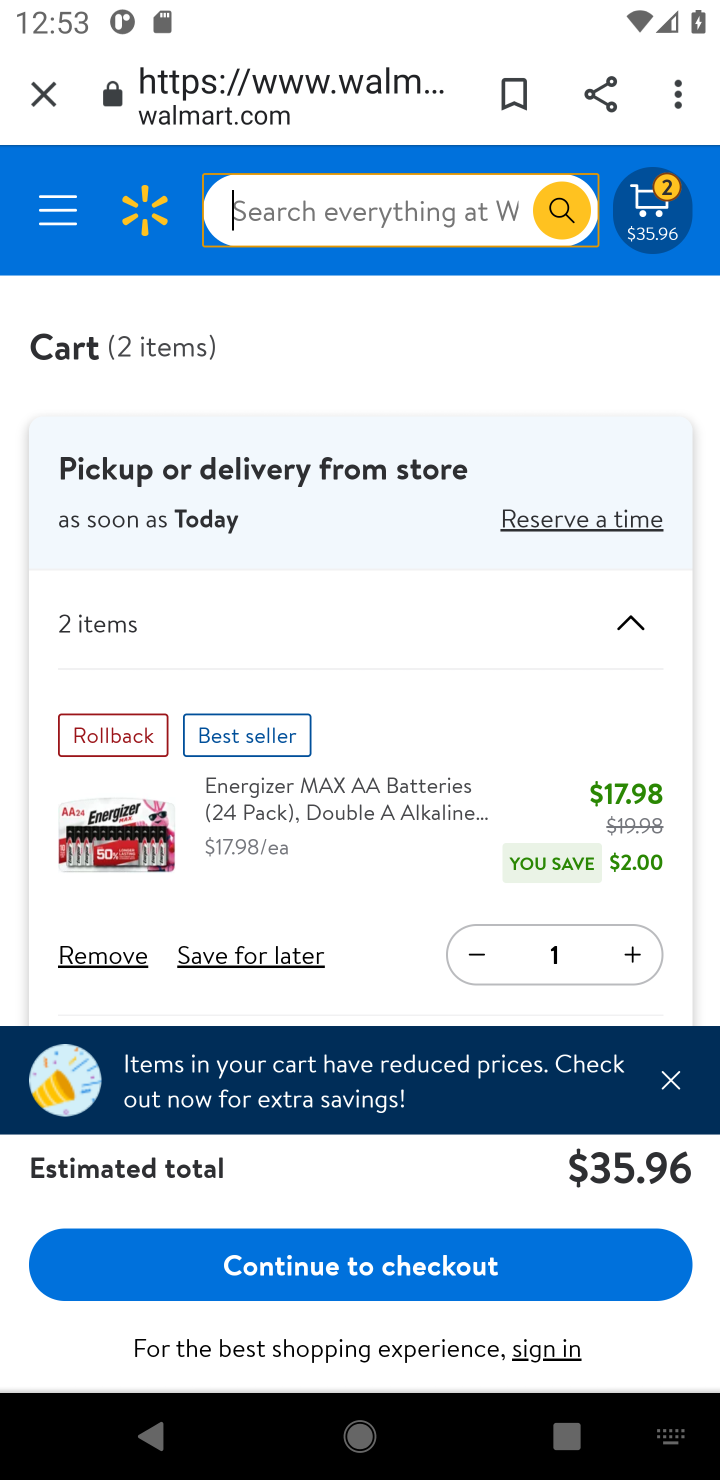
Step 31: click (371, 1264)
Your task to perform on an android device: Clear the cart on walmart. Search for "energizer triple a" on walmart, select the first entry, add it to the cart, then select checkout. Image 32: 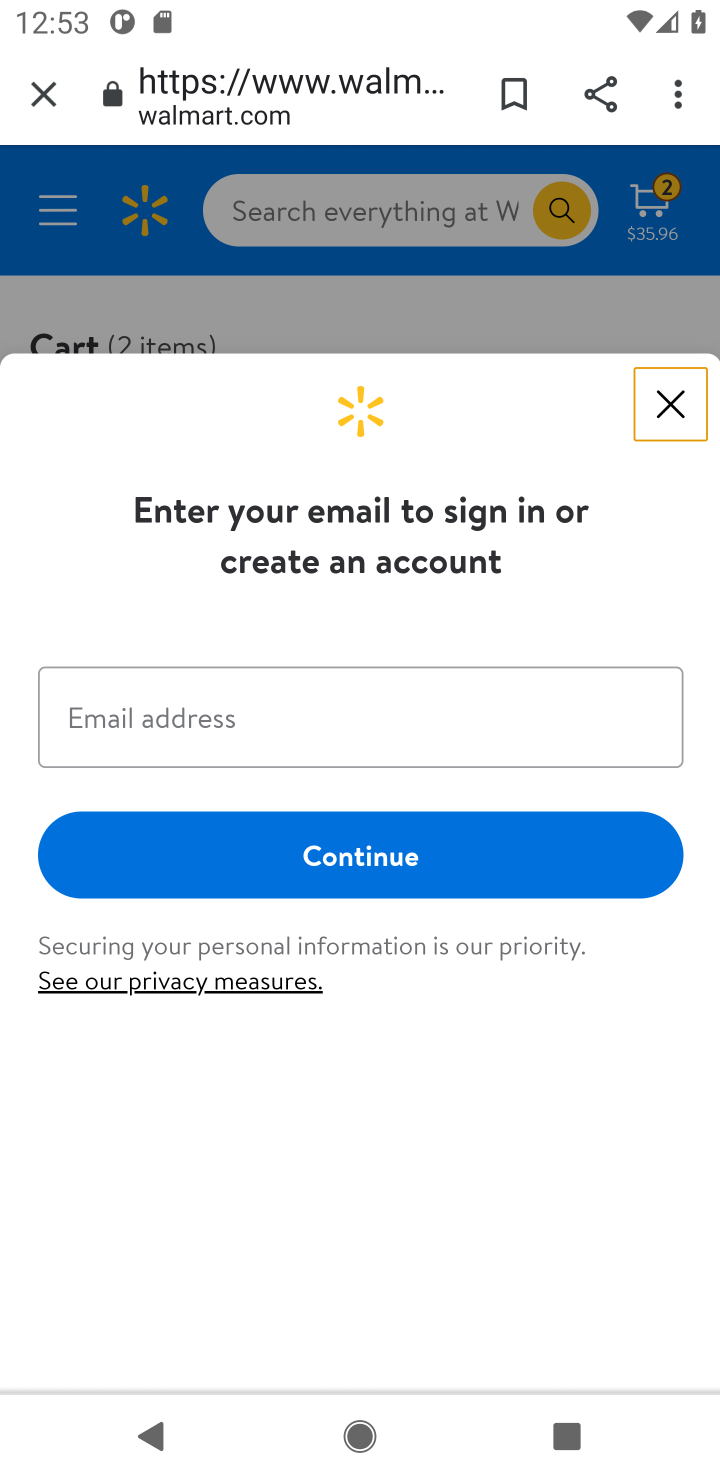
Step 32: task complete